Your task to perform on an android device: Add razer deathadder to the cart on bestbuy, then select checkout. Image 0: 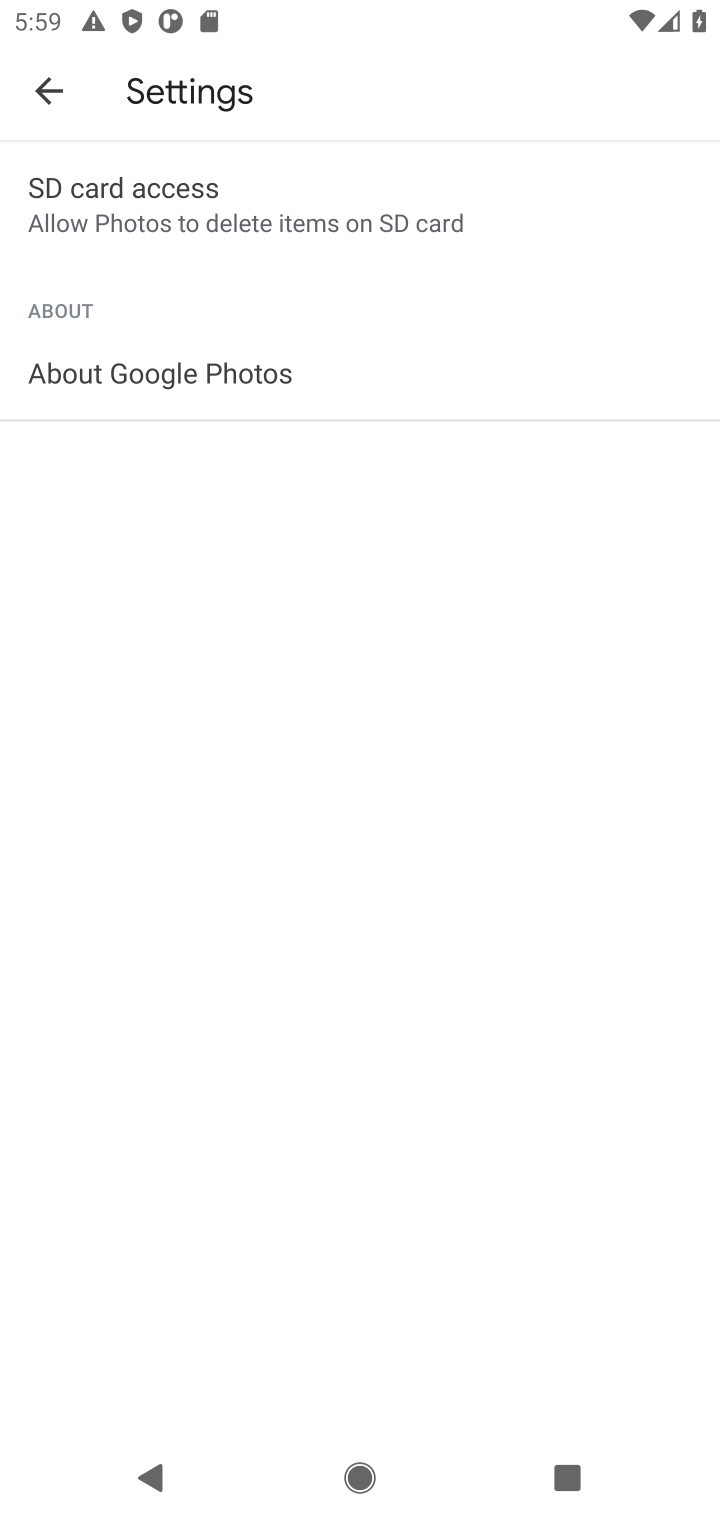
Step 0: press home button
Your task to perform on an android device: Add razer deathadder to the cart on bestbuy, then select checkout. Image 1: 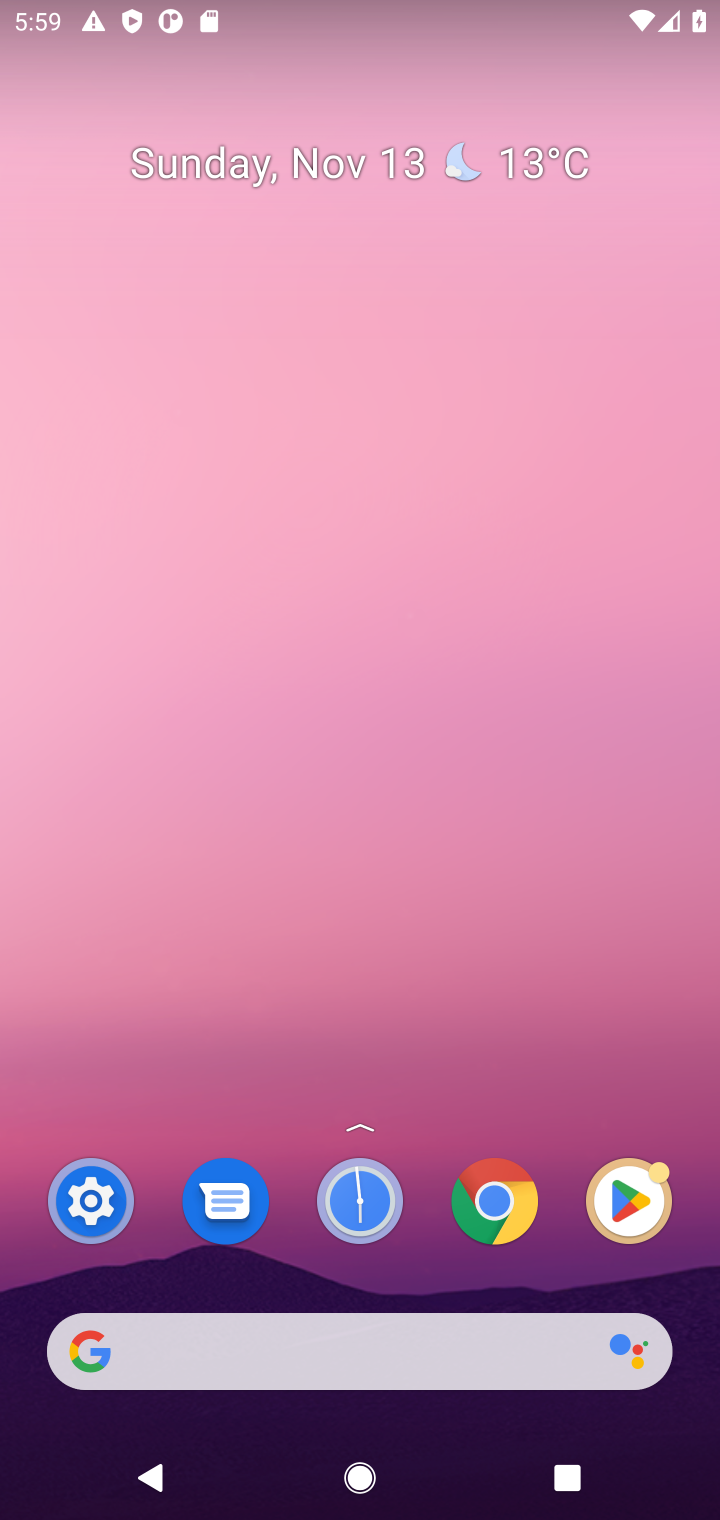
Step 1: drag from (345, 851) to (370, 41)
Your task to perform on an android device: Add razer deathadder to the cart on bestbuy, then select checkout. Image 2: 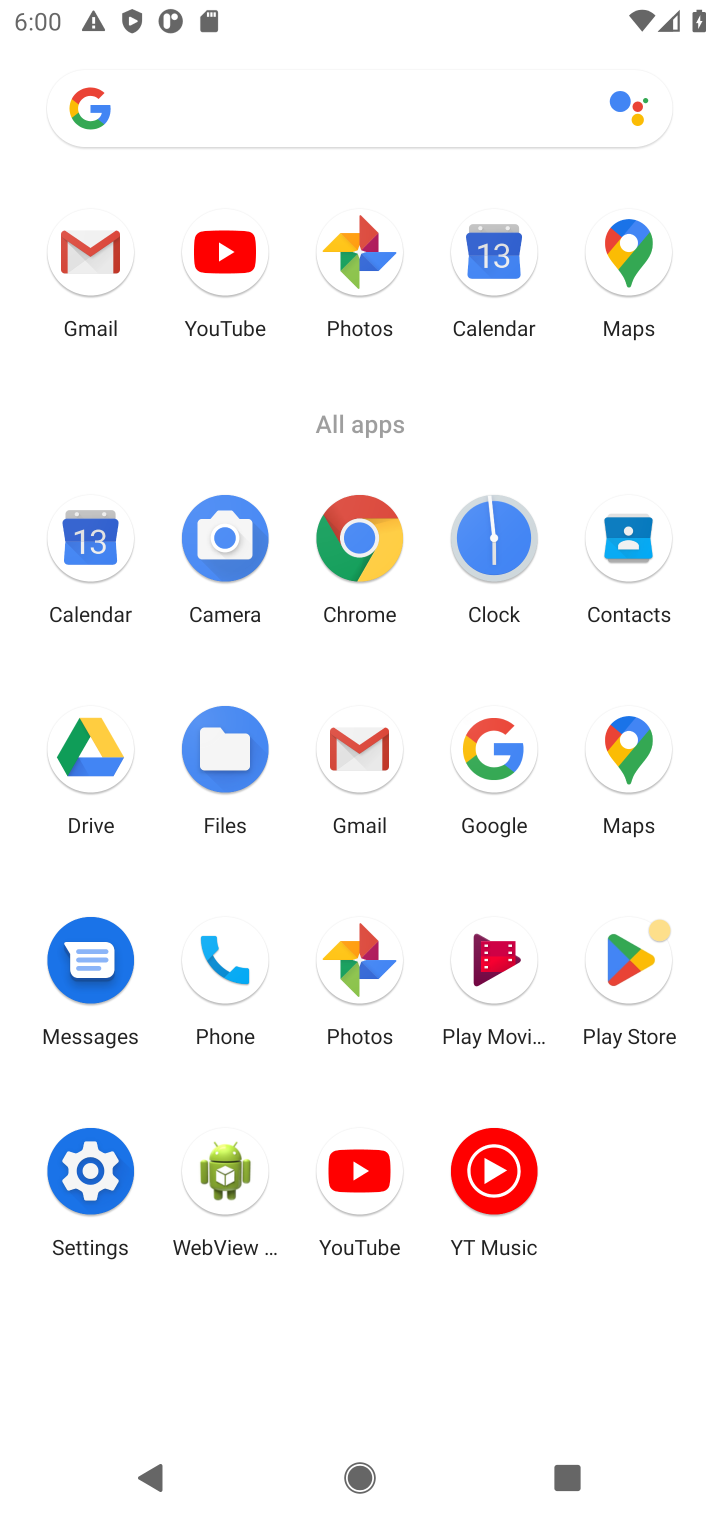
Step 2: click (361, 549)
Your task to perform on an android device: Add razer deathadder to the cart on bestbuy, then select checkout. Image 3: 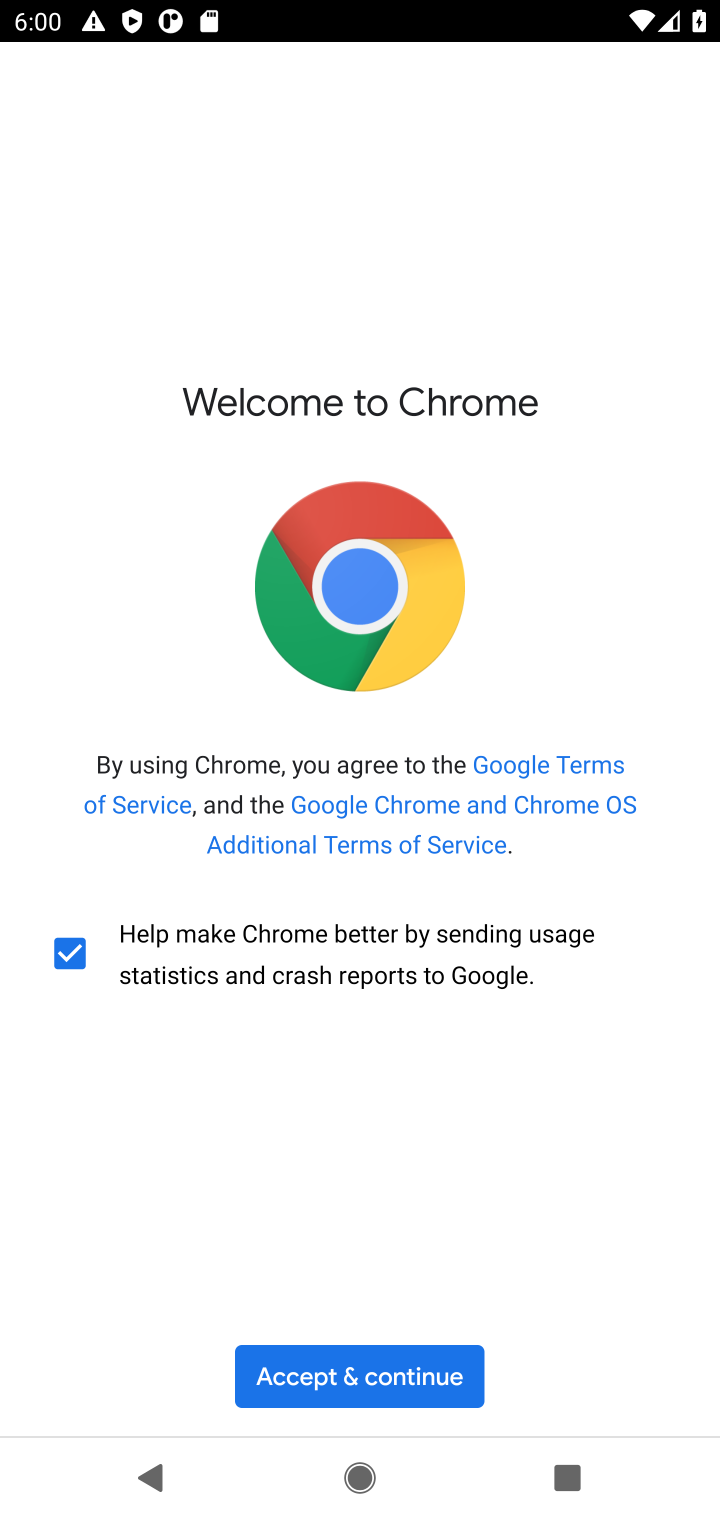
Step 3: click (389, 1358)
Your task to perform on an android device: Add razer deathadder to the cart on bestbuy, then select checkout. Image 4: 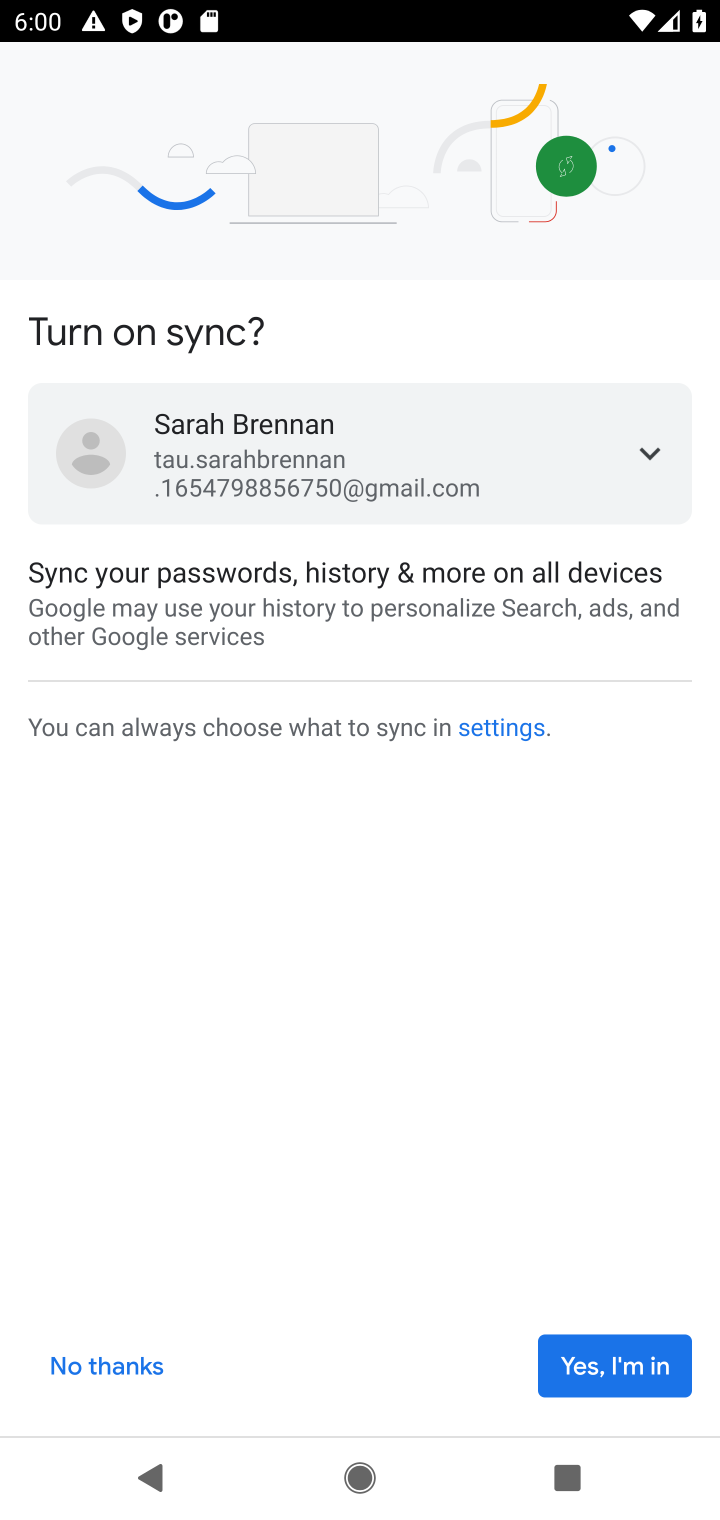
Step 4: click (636, 1369)
Your task to perform on an android device: Add razer deathadder to the cart on bestbuy, then select checkout. Image 5: 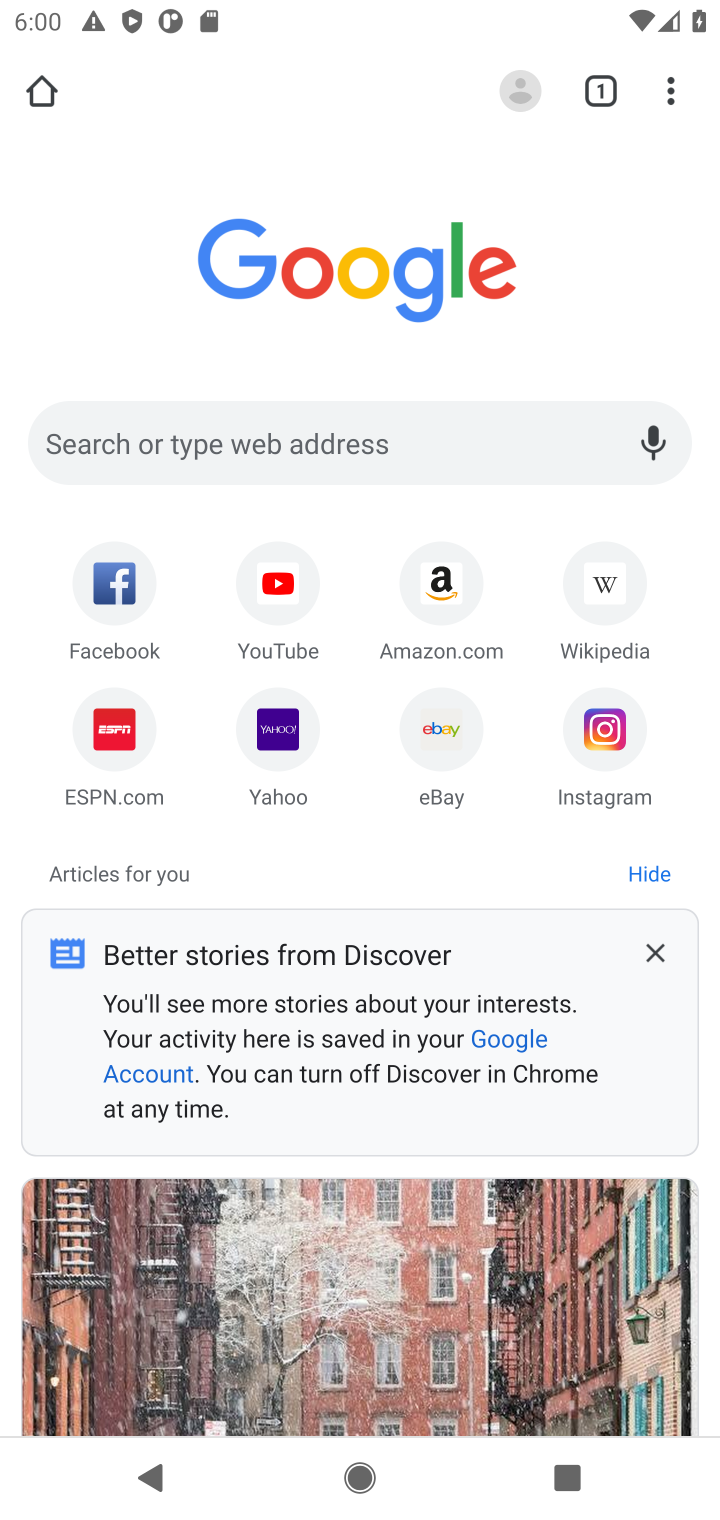
Step 5: click (437, 448)
Your task to perform on an android device: Add razer deathadder to the cart on bestbuy, then select checkout. Image 6: 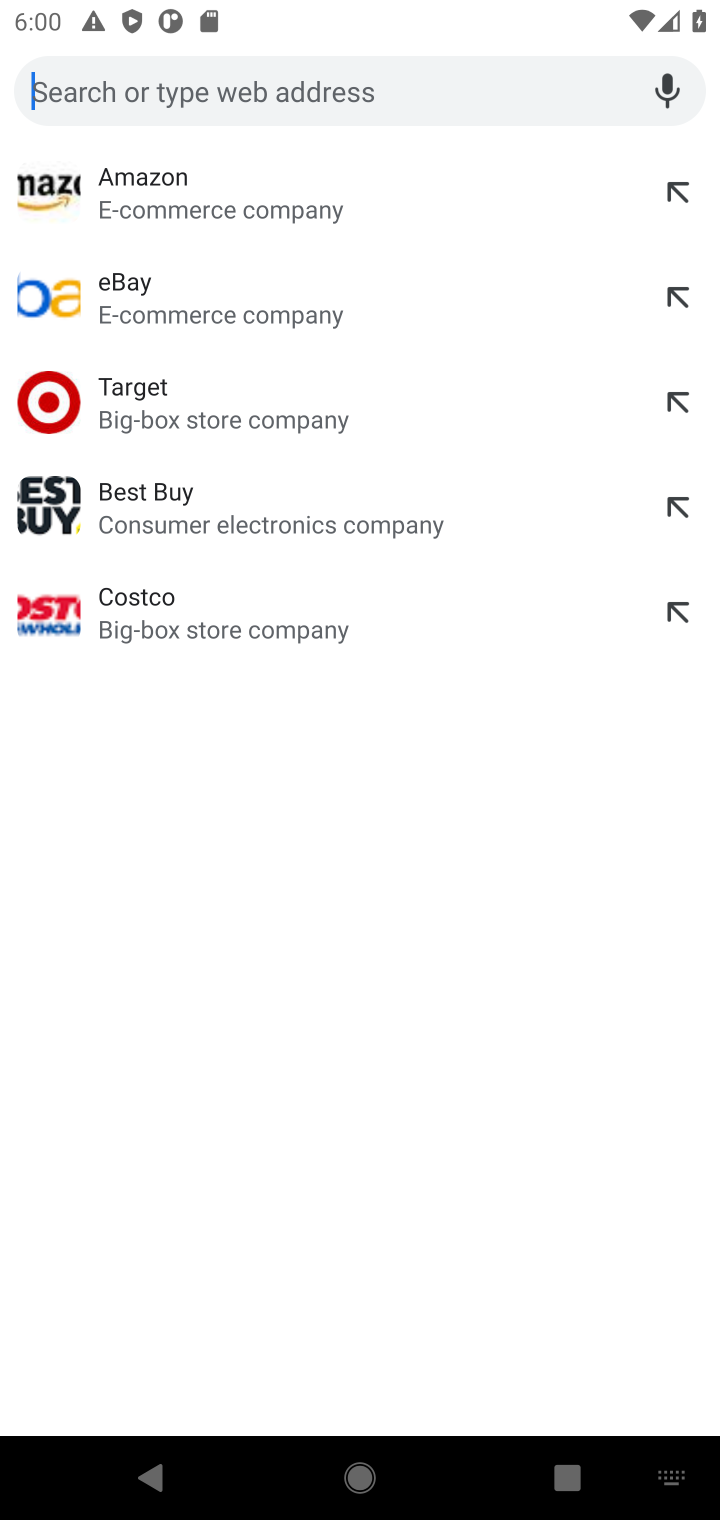
Step 6: type "bestbuy.coom"
Your task to perform on an android device: Add razer deathadder to the cart on bestbuy, then select checkout. Image 7: 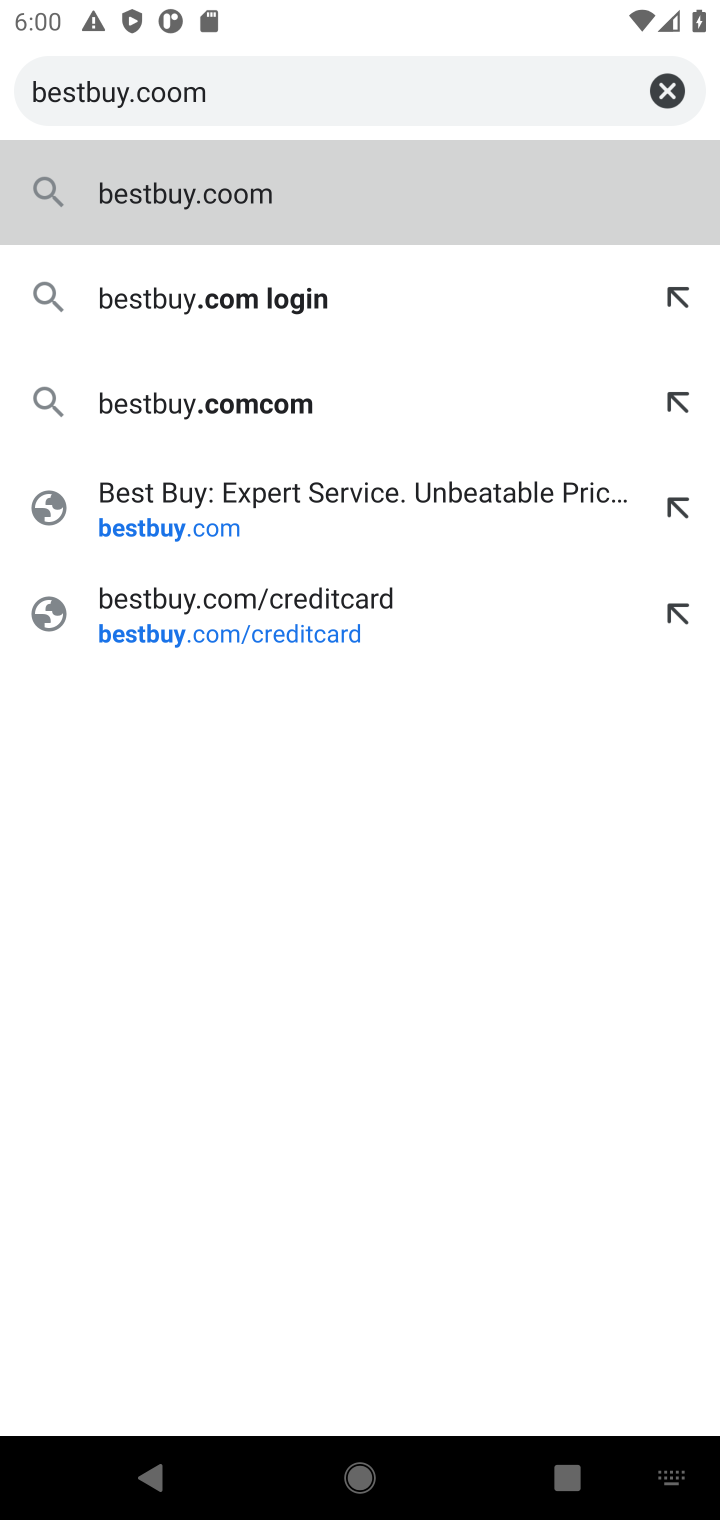
Step 7: press enter
Your task to perform on an android device: Add razer deathadder to the cart on bestbuy, then select checkout. Image 8: 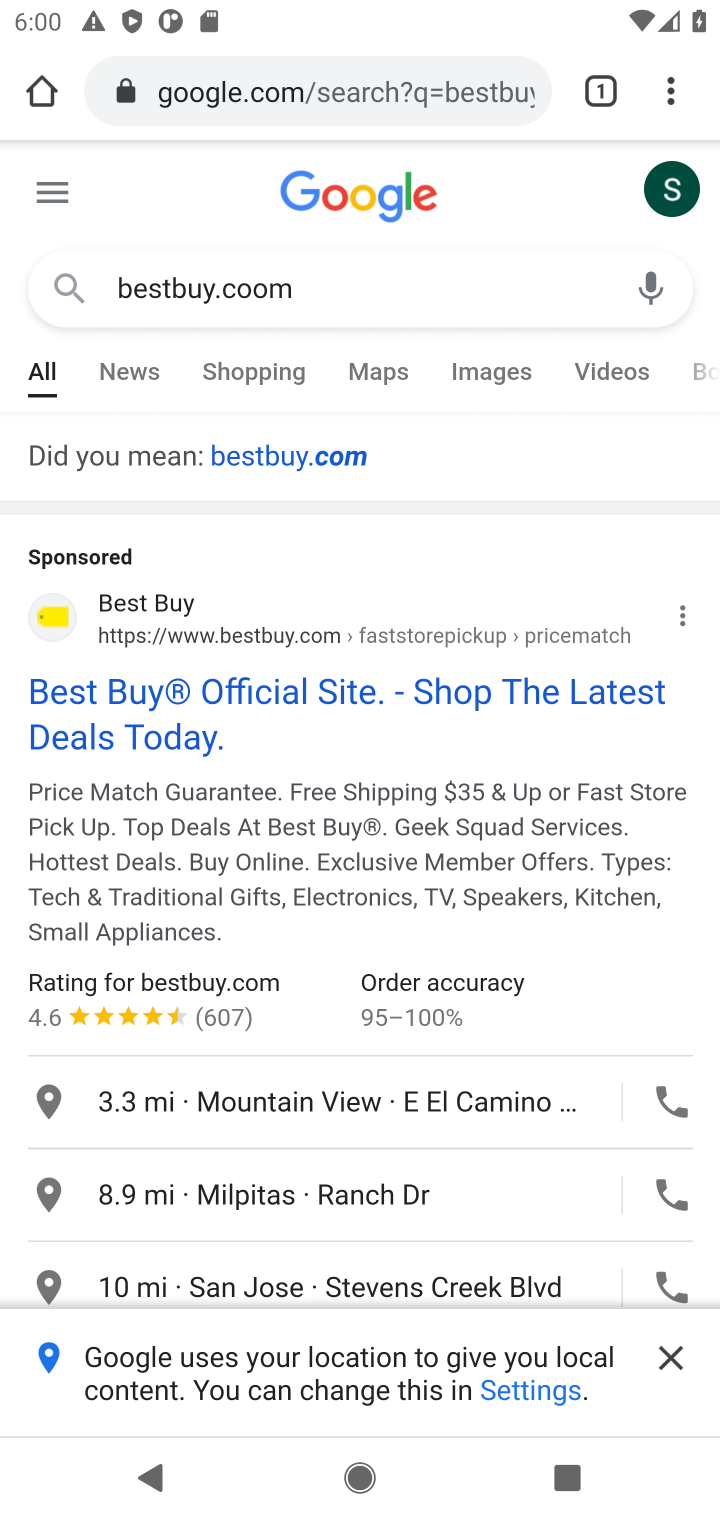
Step 8: drag from (286, 924) to (452, 61)
Your task to perform on an android device: Add razer deathadder to the cart on bestbuy, then select checkout. Image 9: 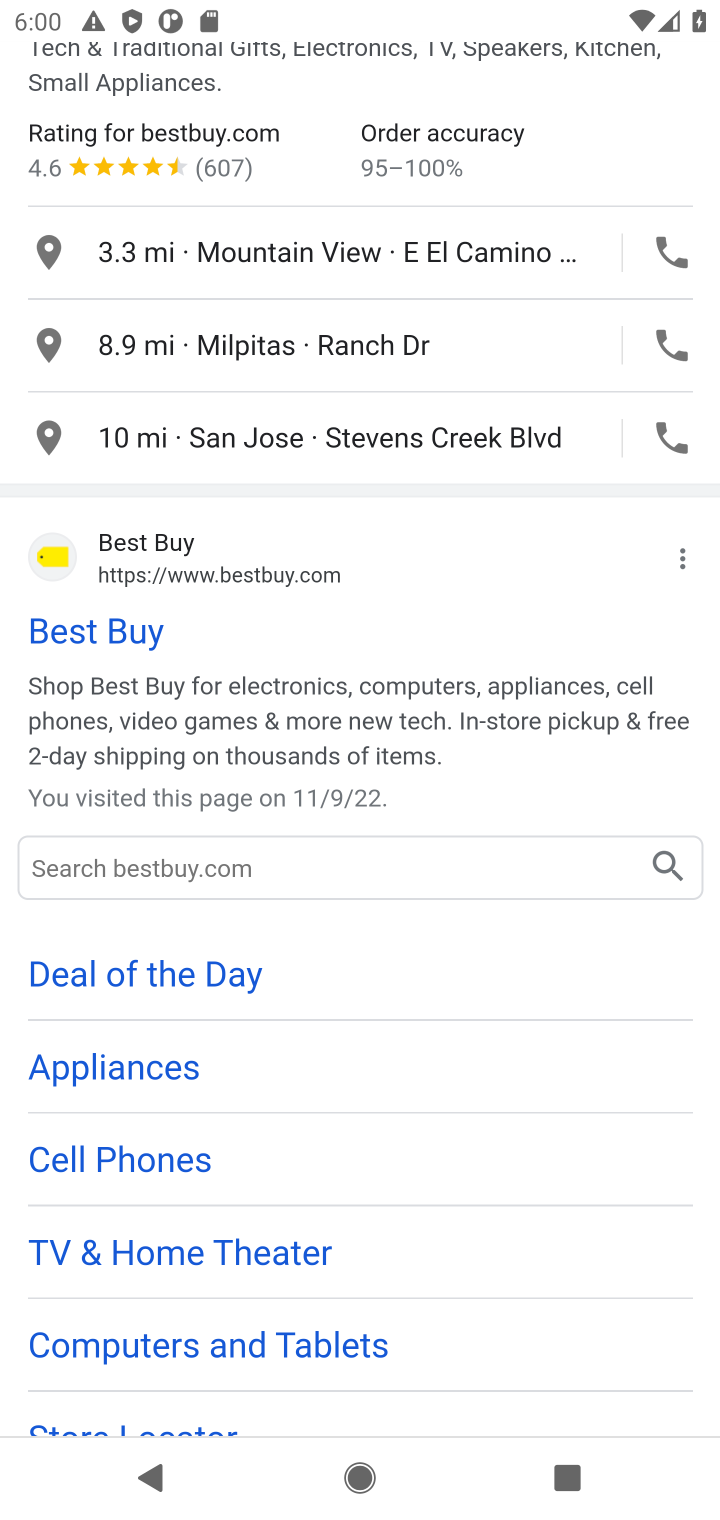
Step 9: drag from (397, 1171) to (537, 196)
Your task to perform on an android device: Add razer deathadder to the cart on bestbuy, then select checkout. Image 10: 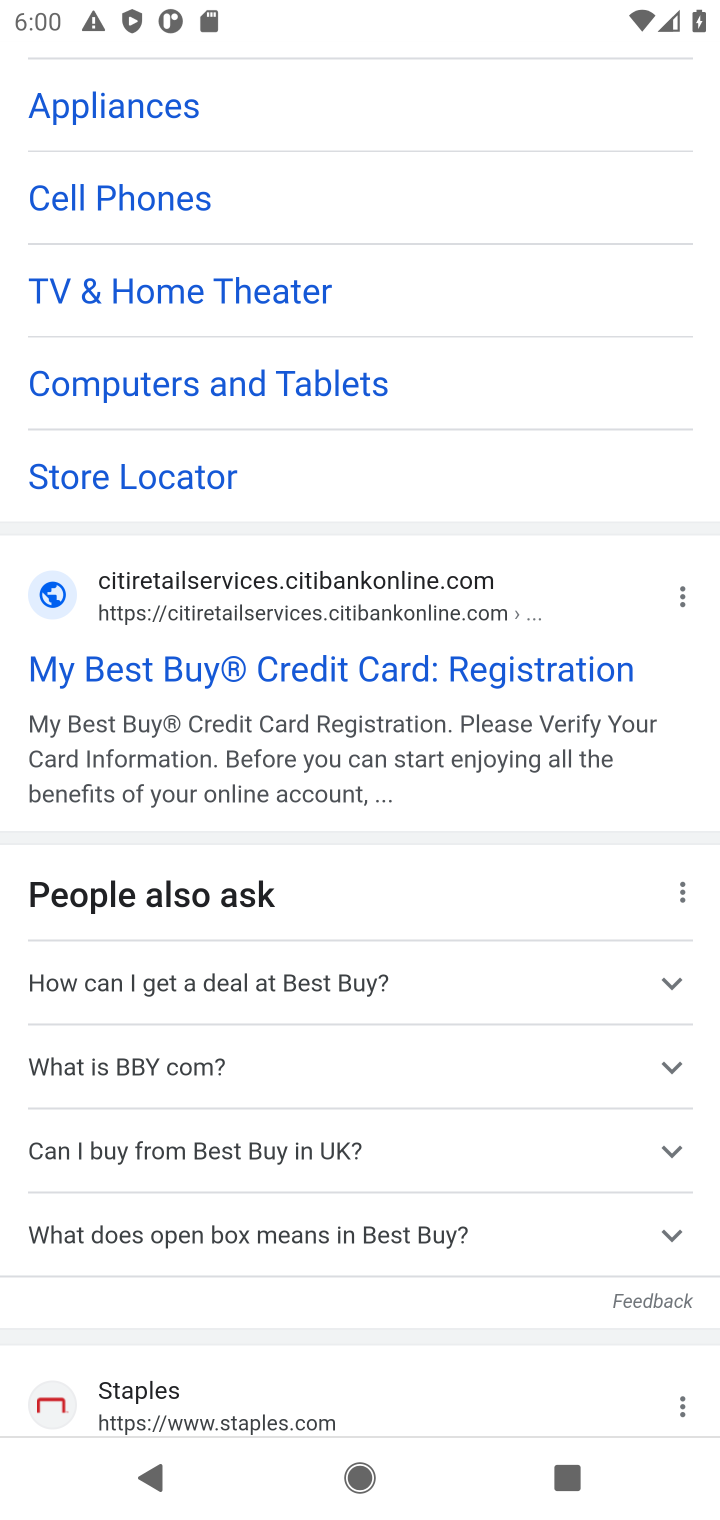
Step 10: drag from (276, 1004) to (410, 0)
Your task to perform on an android device: Add razer deathadder to the cart on bestbuy, then select checkout. Image 11: 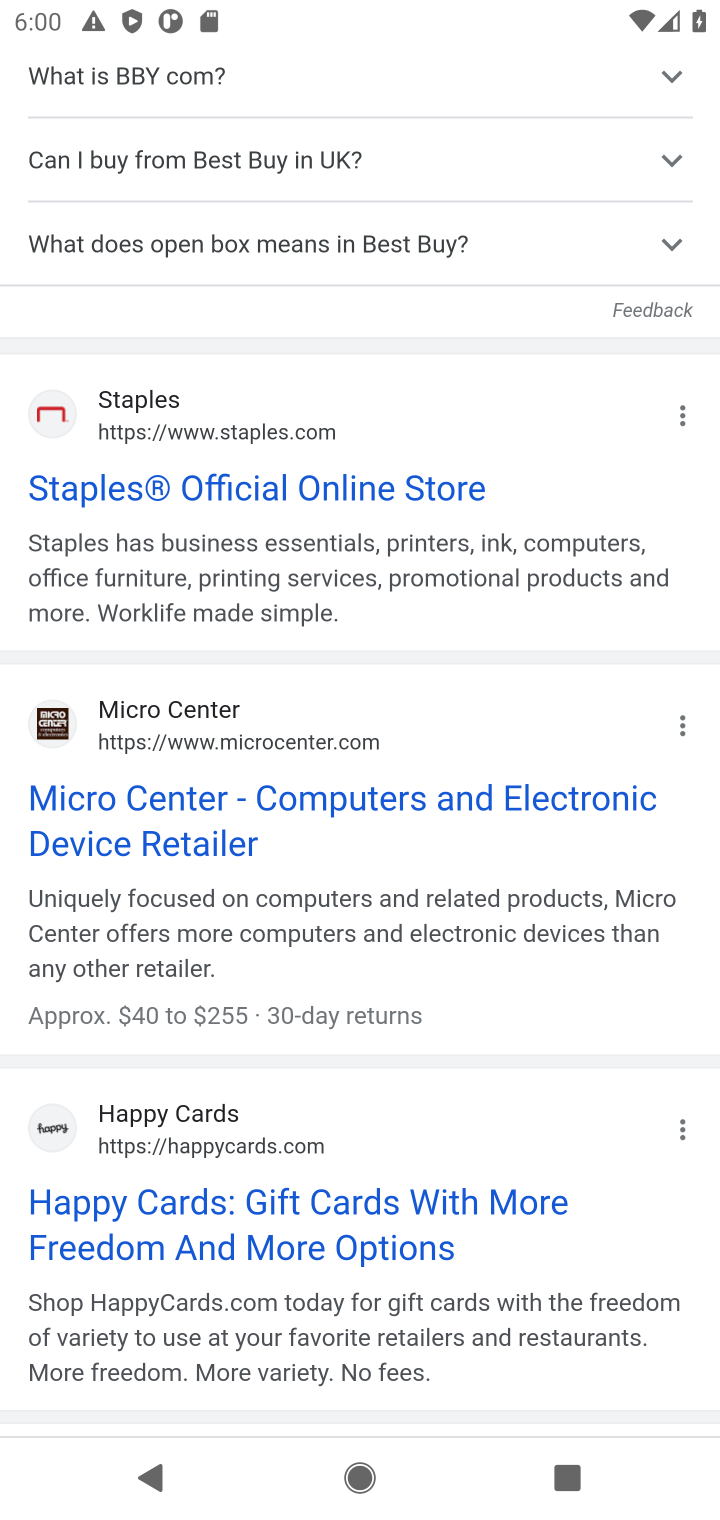
Step 11: drag from (334, 179) to (397, 1176)
Your task to perform on an android device: Add razer deathadder to the cart on bestbuy, then select checkout. Image 12: 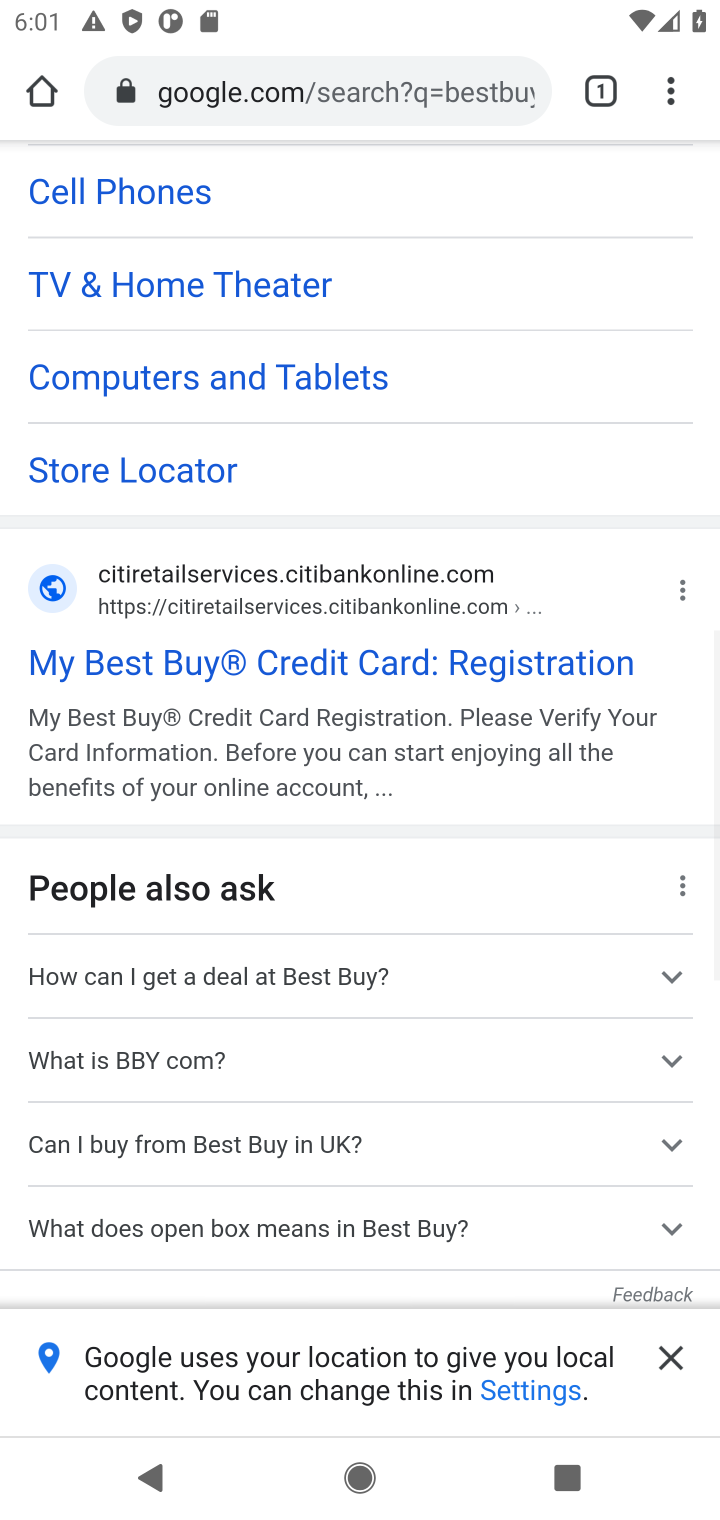
Step 12: click (334, 86)
Your task to perform on an android device: Add razer deathadder to the cart on bestbuy, then select checkout. Image 13: 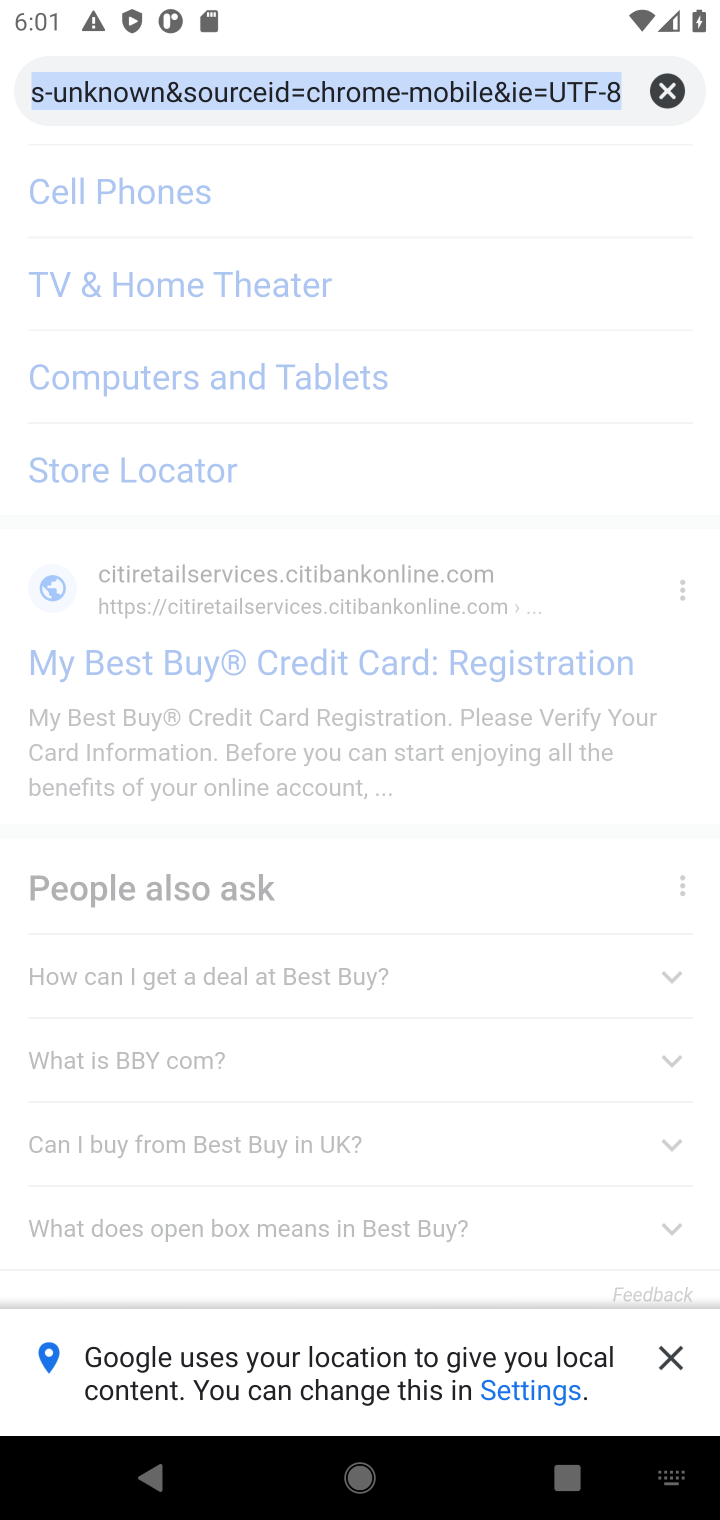
Step 13: type "bestbuy.com"
Your task to perform on an android device: Add razer deathadder to the cart on bestbuy, then select checkout. Image 14: 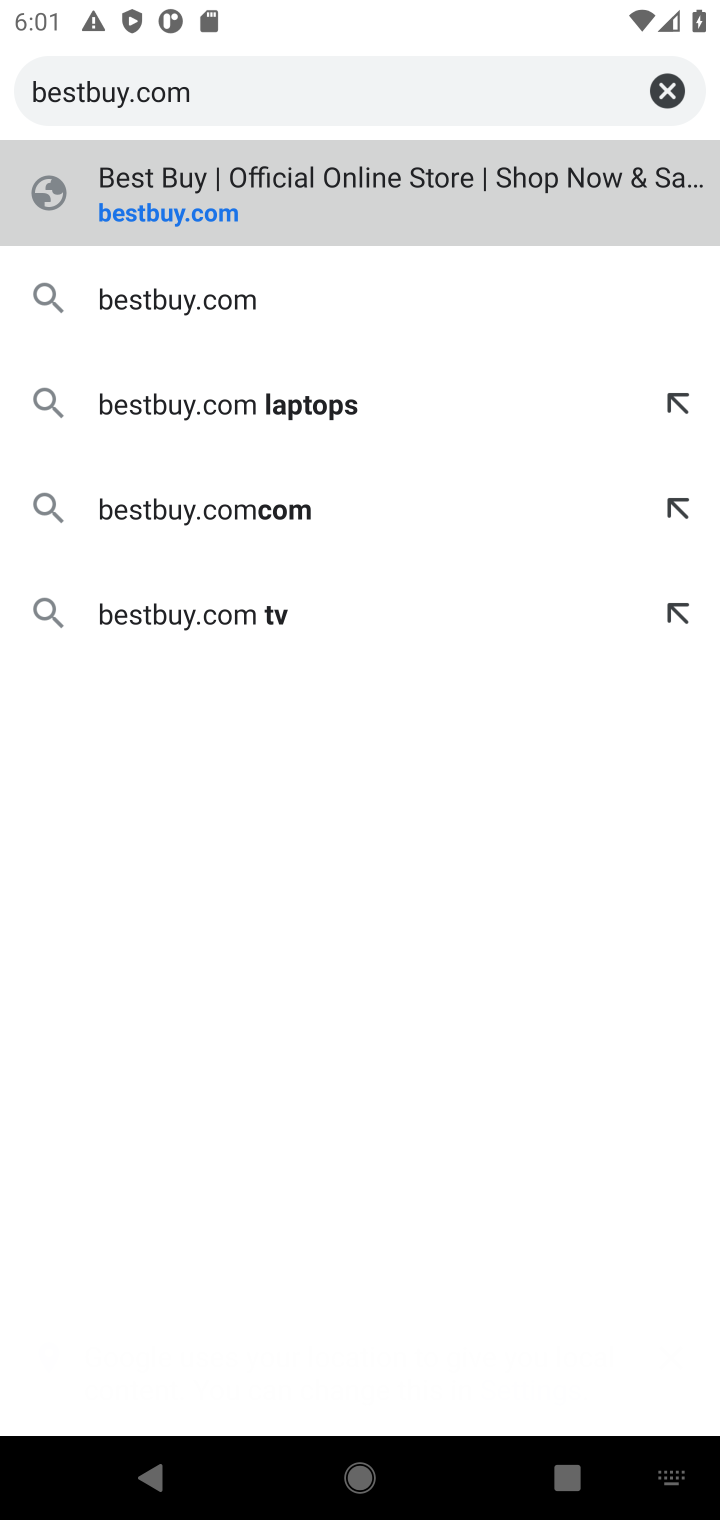
Step 14: press enter
Your task to perform on an android device: Add razer deathadder to the cart on bestbuy, then select checkout. Image 15: 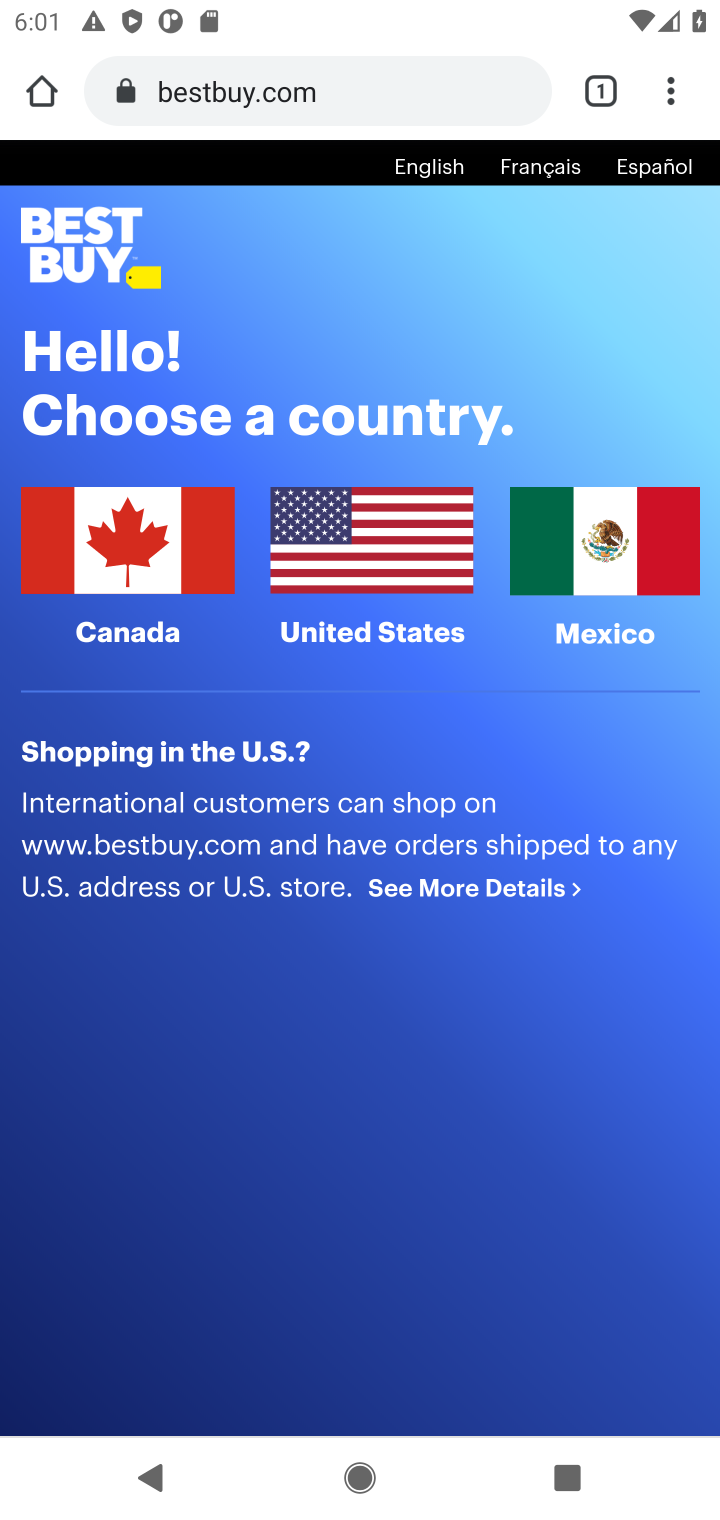
Step 15: click (129, 535)
Your task to perform on an android device: Add razer deathadder to the cart on bestbuy, then select checkout. Image 16: 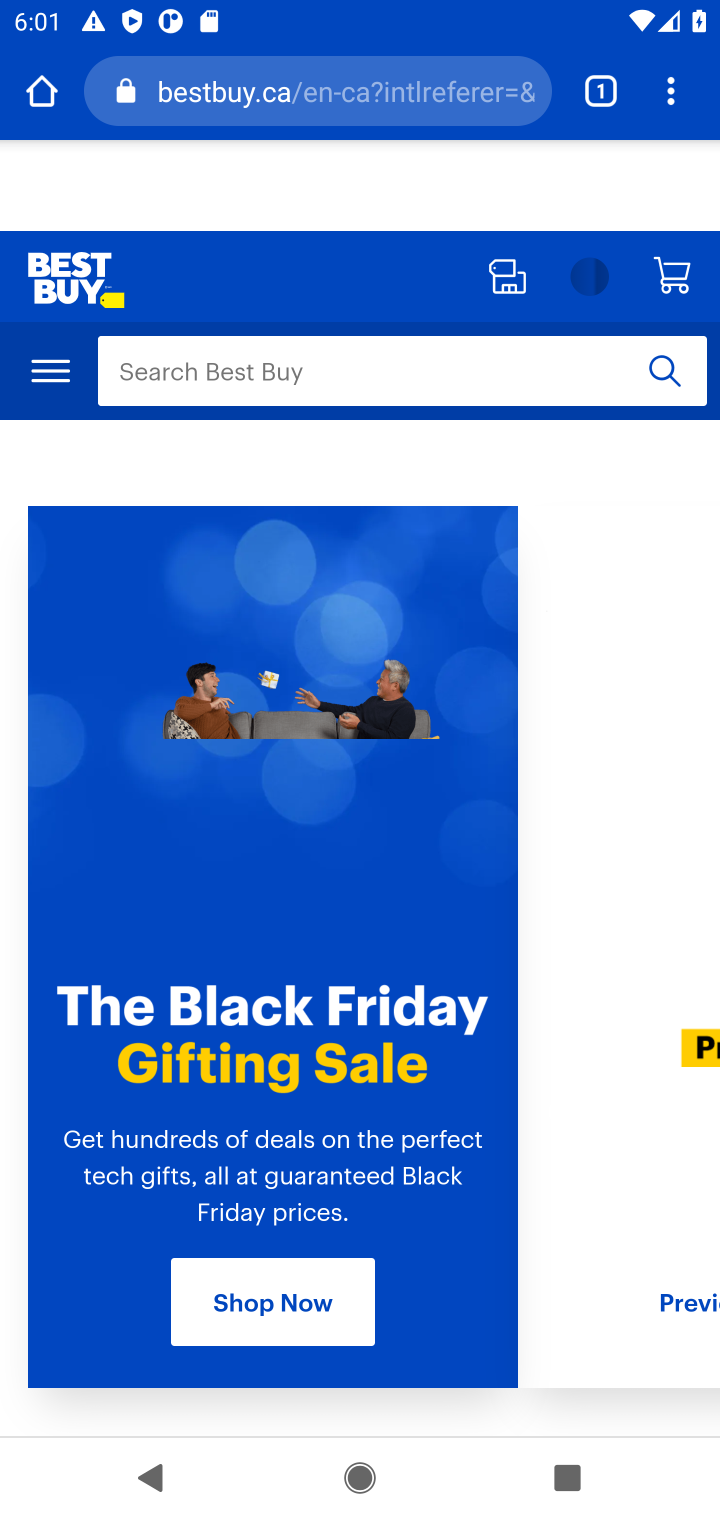
Step 16: click (460, 374)
Your task to perform on an android device: Add razer deathadder to the cart on bestbuy, then select checkout. Image 17: 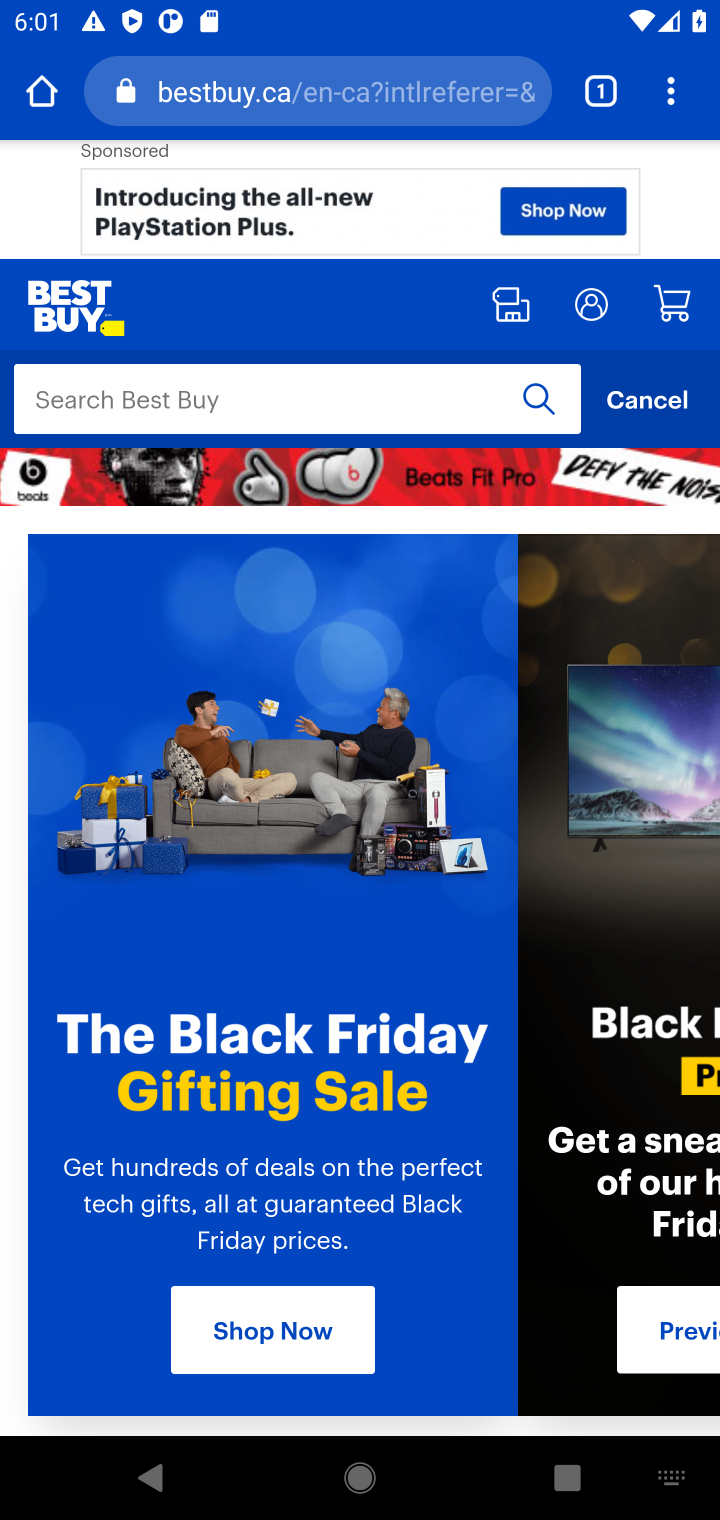
Step 17: type "razer deathadder"
Your task to perform on an android device: Add razer deathadder to the cart on bestbuy, then select checkout. Image 18: 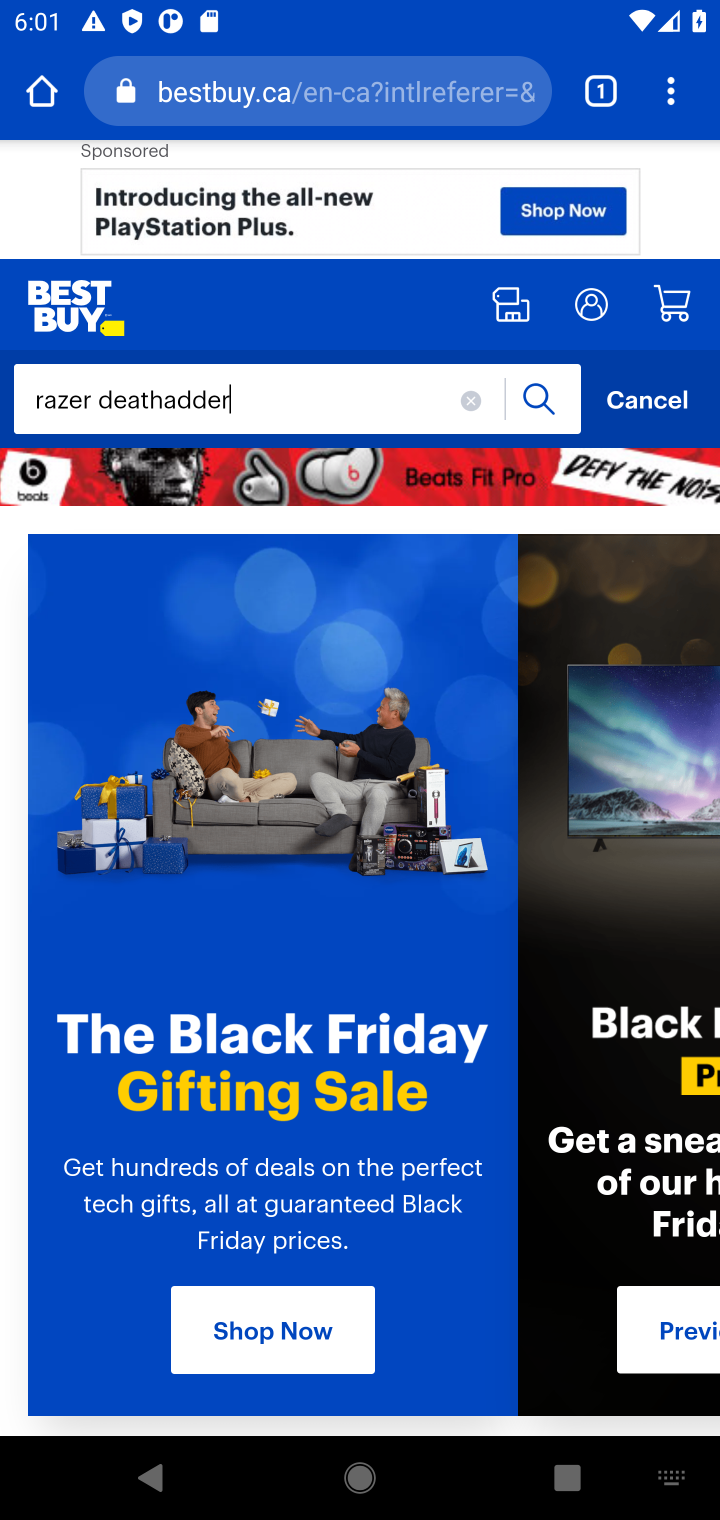
Step 18: press enter
Your task to perform on an android device: Add razer deathadder to the cart on bestbuy, then select checkout. Image 19: 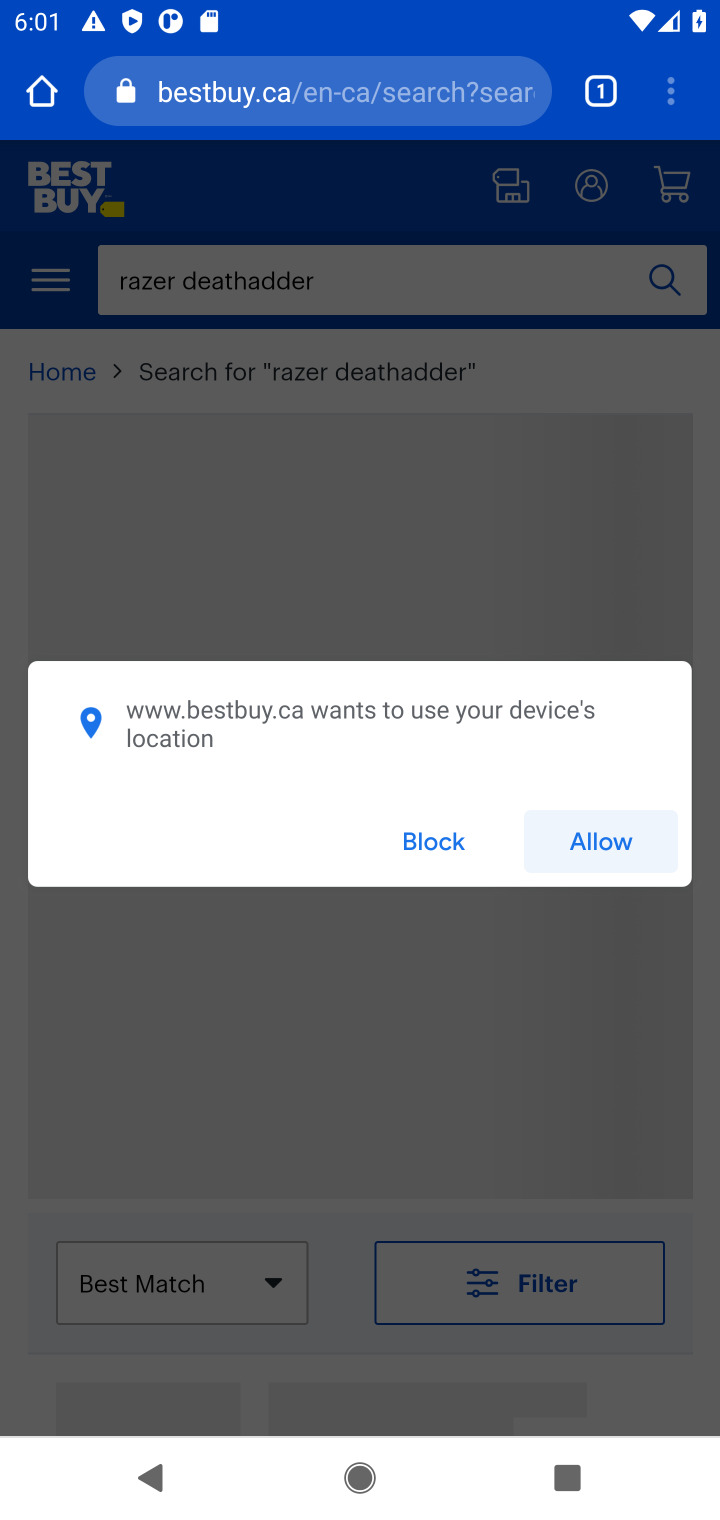
Step 19: click (432, 846)
Your task to perform on an android device: Add razer deathadder to the cart on bestbuy, then select checkout. Image 20: 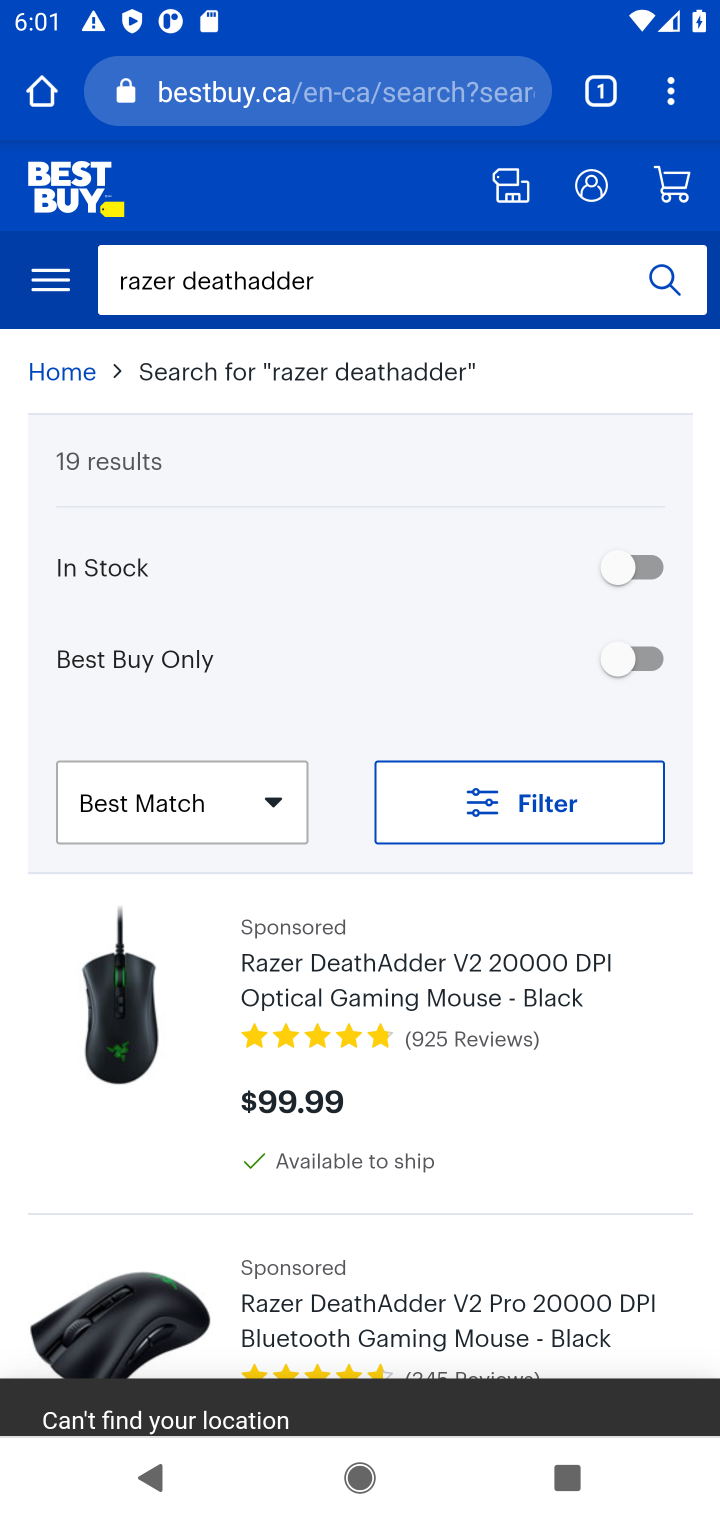
Step 20: drag from (567, 1251) to (399, 574)
Your task to perform on an android device: Add razer deathadder to the cart on bestbuy, then select checkout. Image 21: 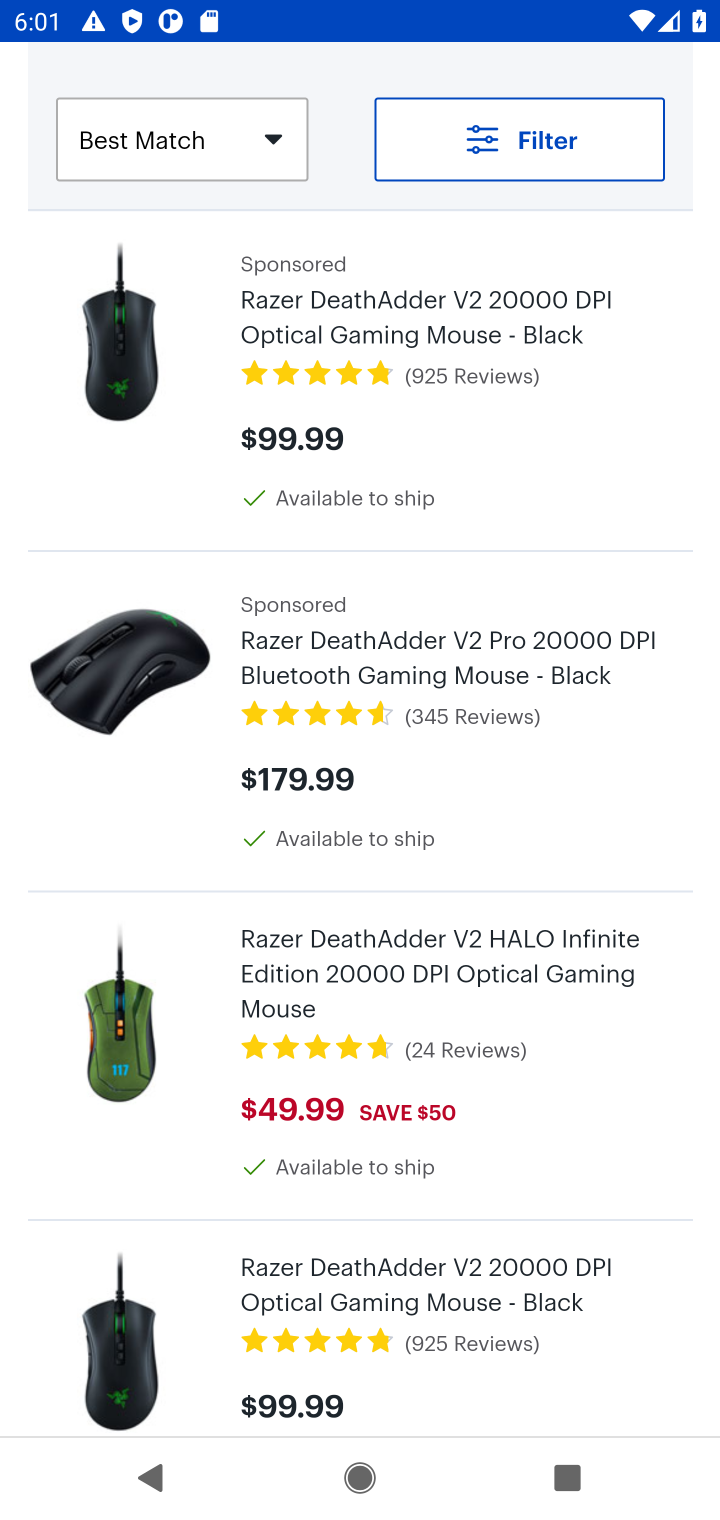
Step 21: click (427, 951)
Your task to perform on an android device: Add razer deathadder to the cart on bestbuy, then select checkout. Image 22: 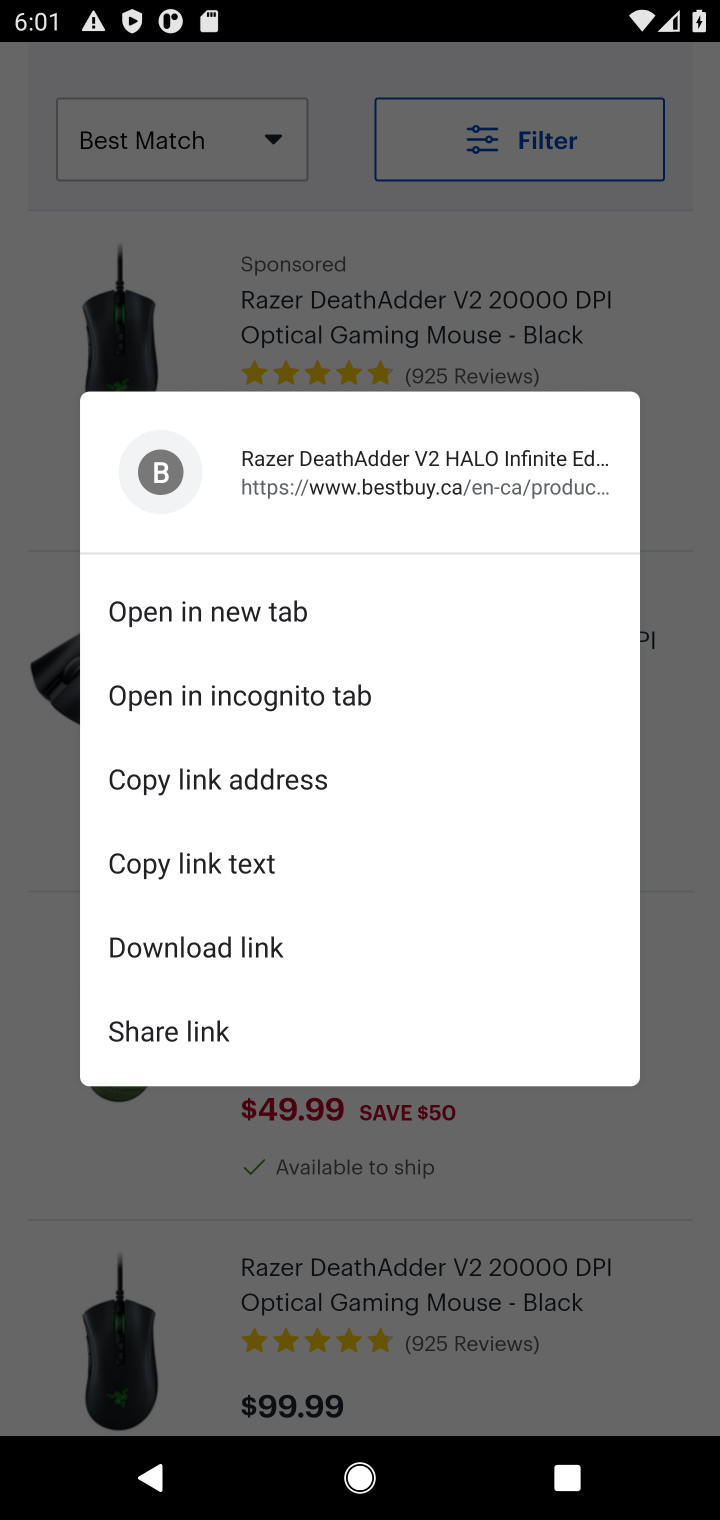
Step 22: click (367, 1160)
Your task to perform on an android device: Add razer deathadder to the cart on bestbuy, then select checkout. Image 23: 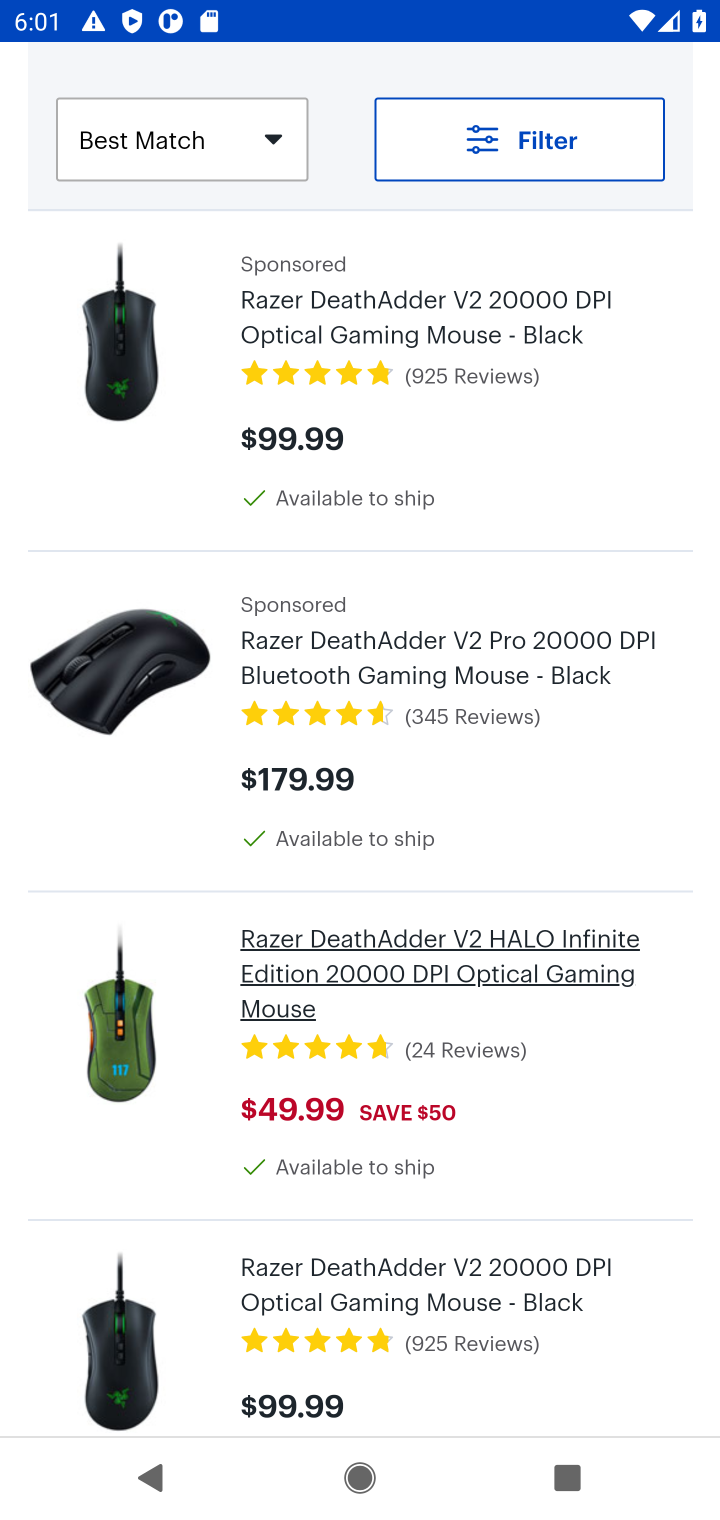
Step 23: click (309, 976)
Your task to perform on an android device: Add razer deathadder to the cart on bestbuy, then select checkout. Image 24: 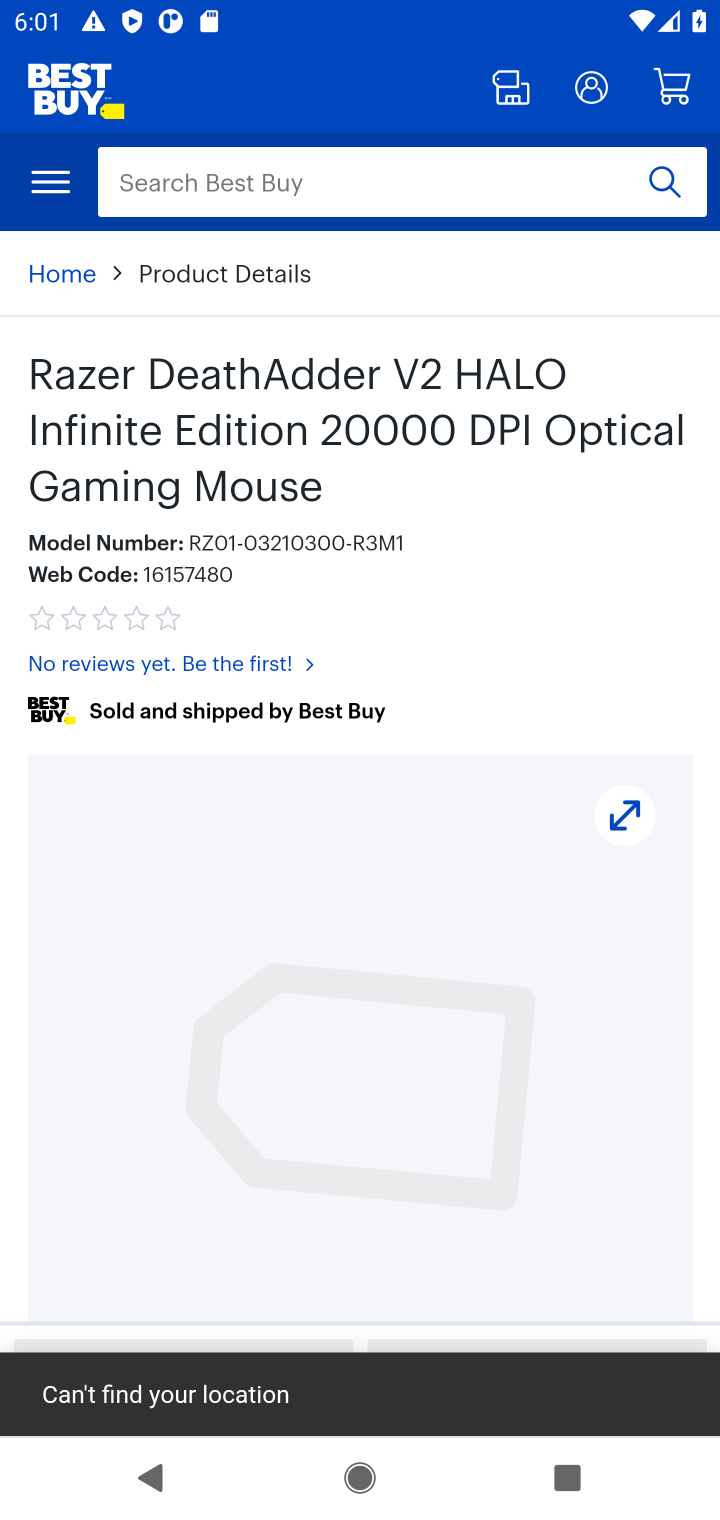
Step 24: drag from (389, 1110) to (366, 727)
Your task to perform on an android device: Add razer deathadder to the cart on bestbuy, then select checkout. Image 25: 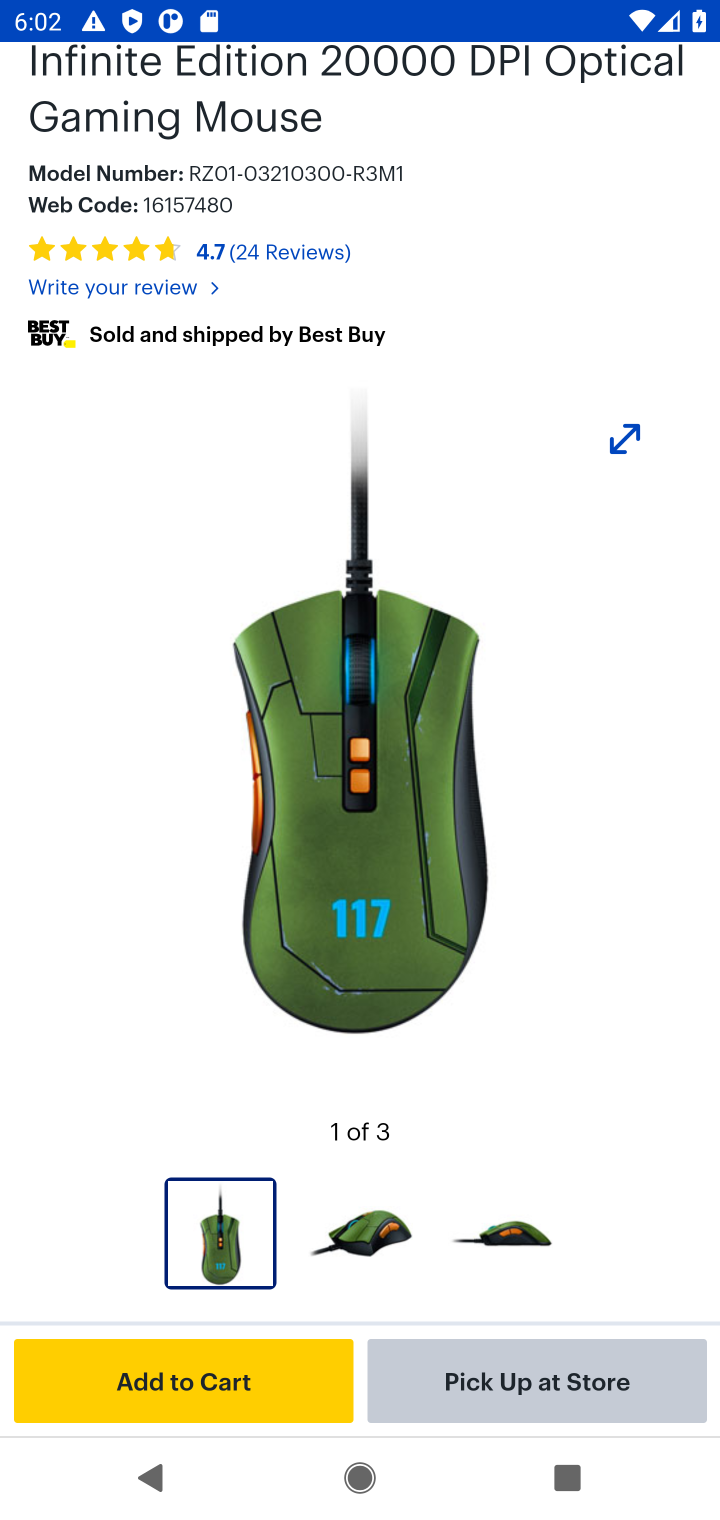
Step 25: click (208, 1378)
Your task to perform on an android device: Add razer deathadder to the cart on bestbuy, then select checkout. Image 26: 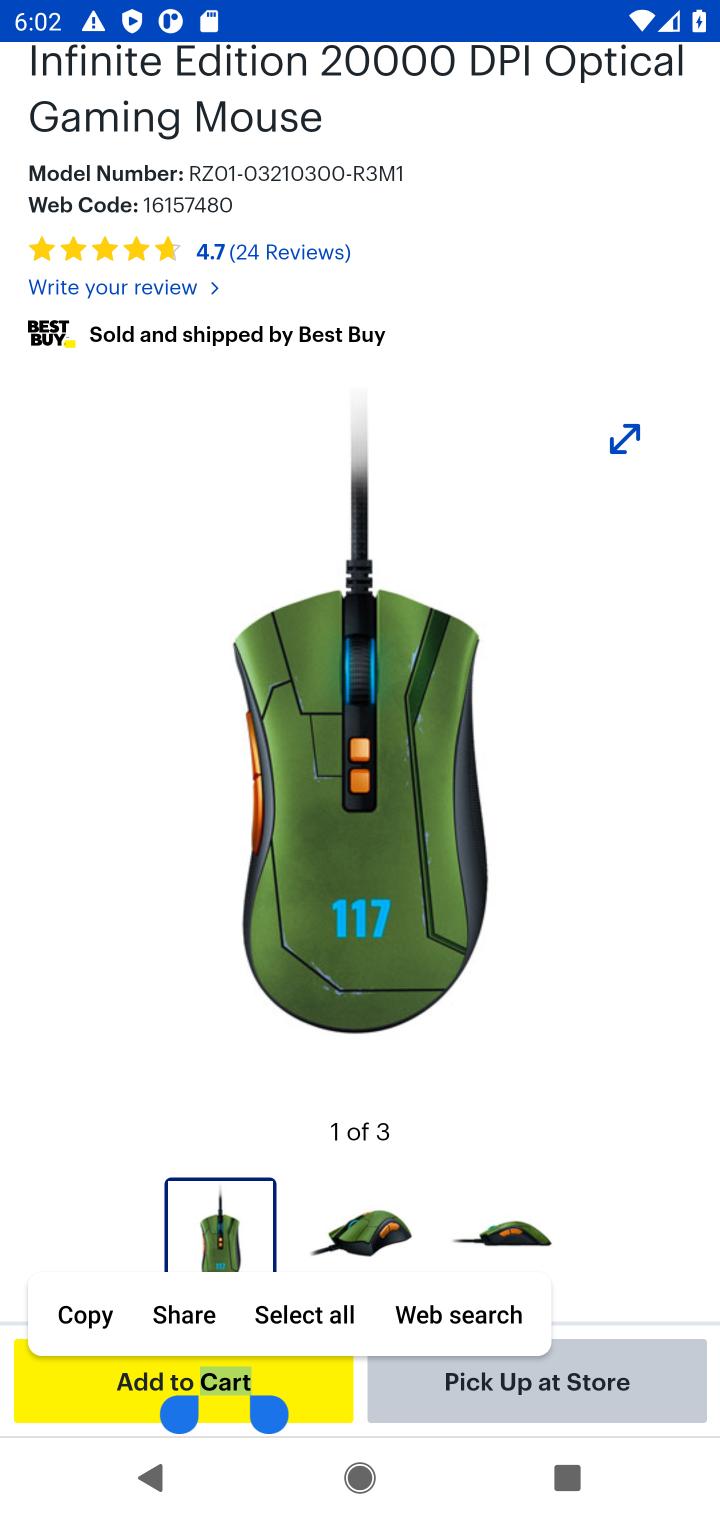
Step 26: click (147, 1383)
Your task to perform on an android device: Add razer deathadder to the cart on bestbuy, then select checkout. Image 27: 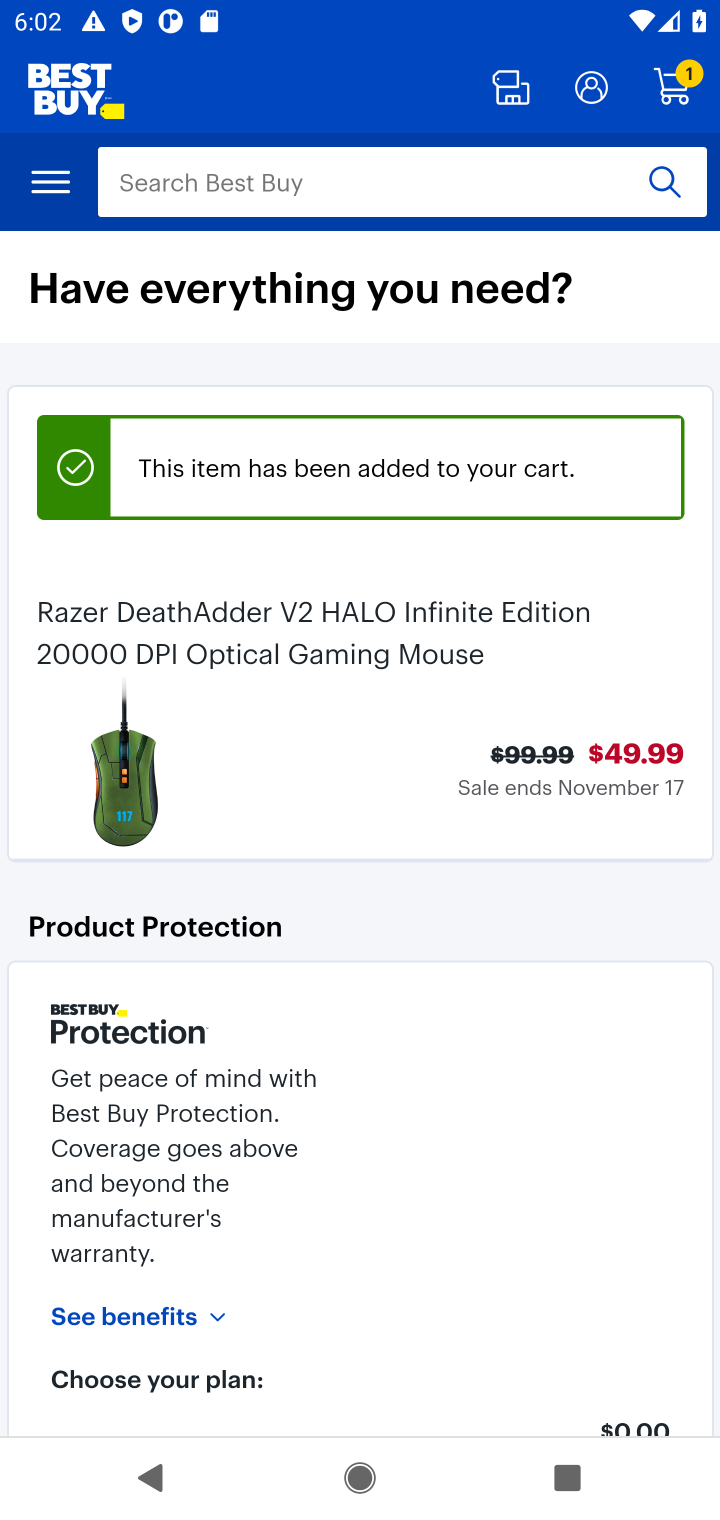
Step 27: drag from (393, 1206) to (387, 825)
Your task to perform on an android device: Add razer deathadder to the cart on bestbuy, then select checkout. Image 28: 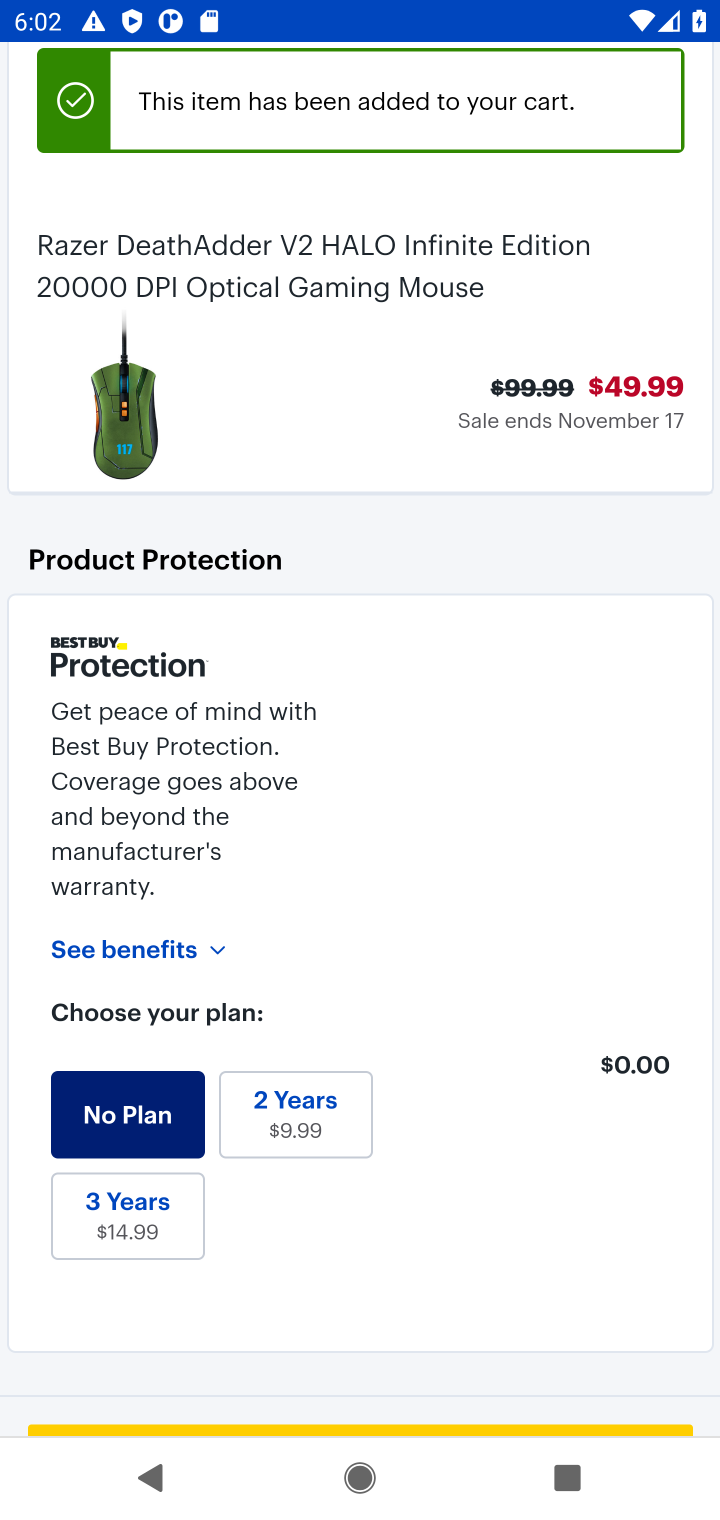
Step 28: drag from (342, 1139) to (408, 508)
Your task to perform on an android device: Add razer deathadder to the cart on bestbuy, then select checkout. Image 29: 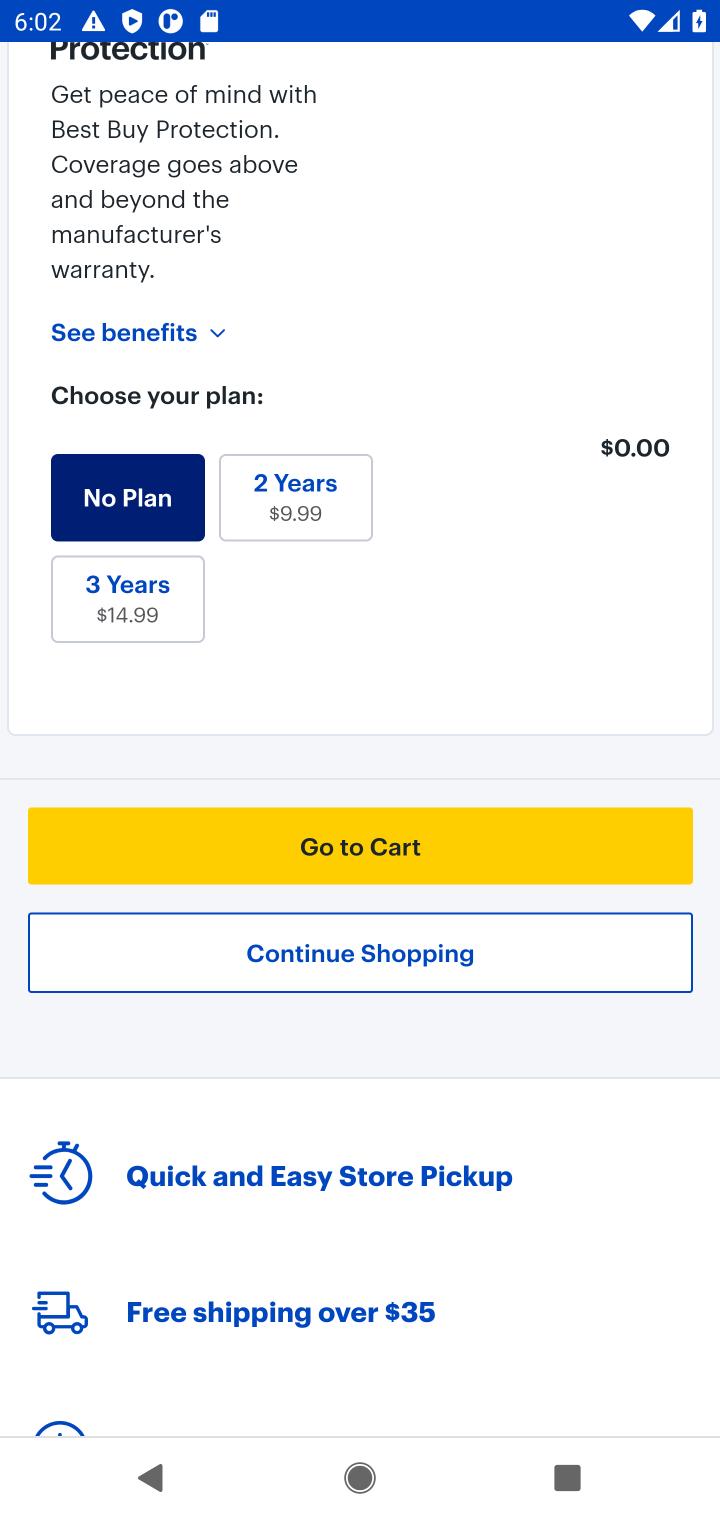
Step 29: click (385, 847)
Your task to perform on an android device: Add razer deathadder to the cart on bestbuy, then select checkout. Image 30: 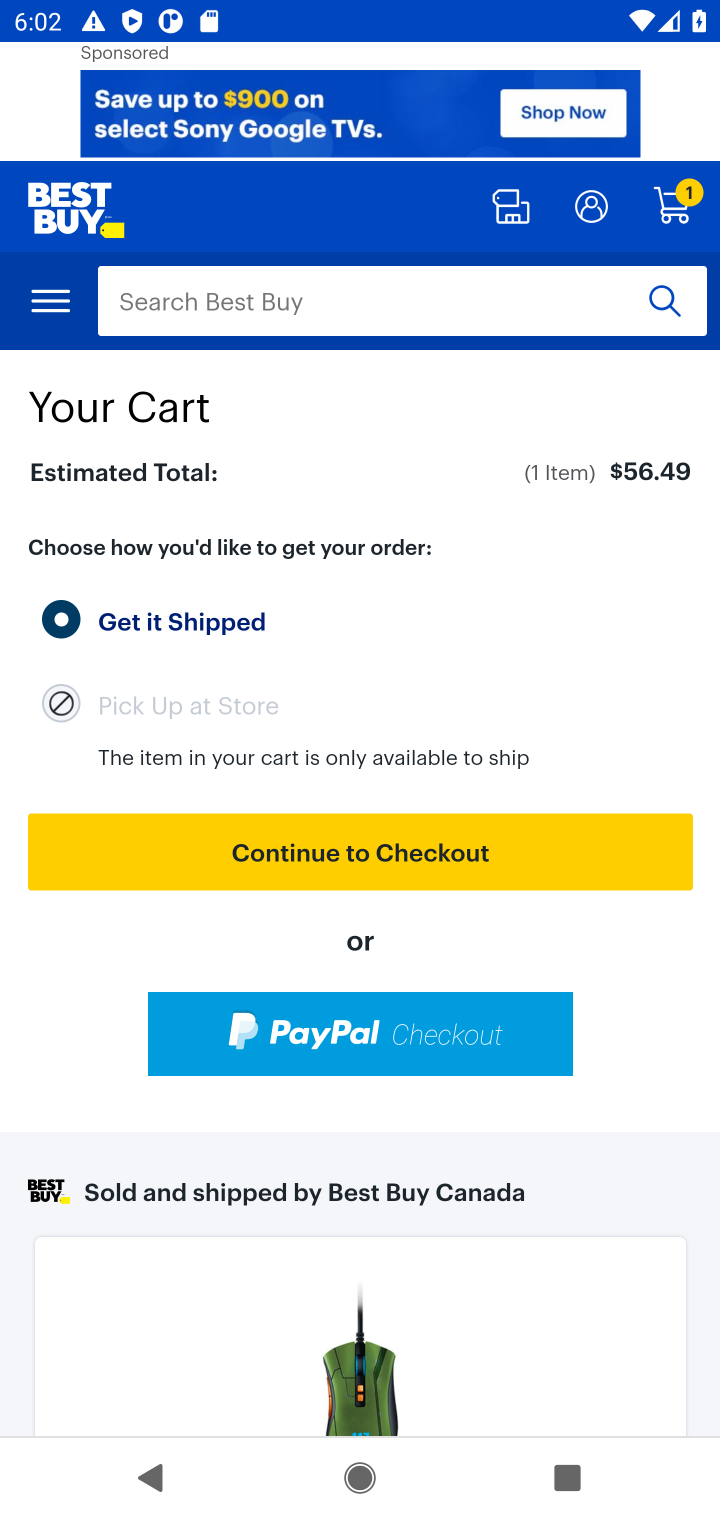
Step 30: click (227, 854)
Your task to perform on an android device: Add razer deathadder to the cart on bestbuy, then select checkout. Image 31: 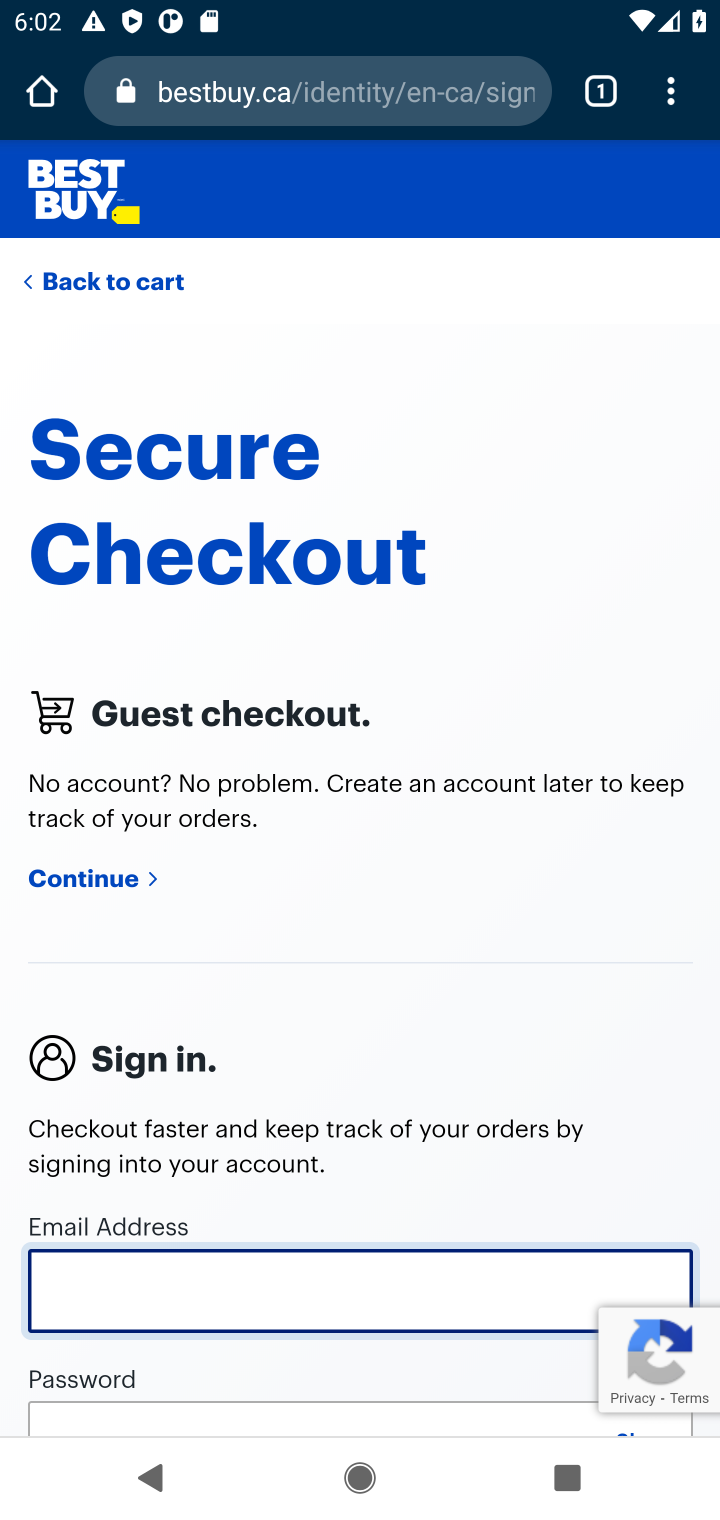
Step 31: task complete